Your task to perform on an android device: What's a good restaurant near me? Image 0: 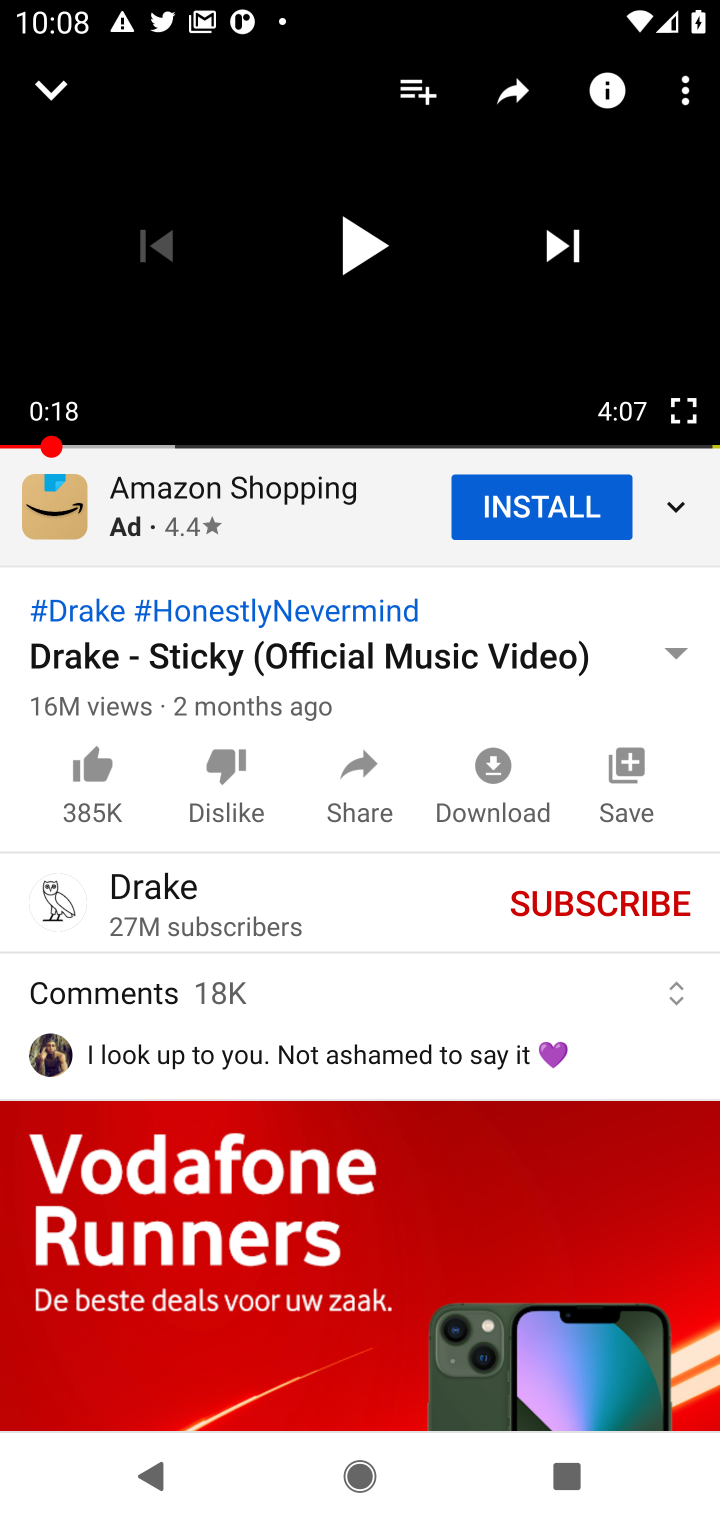
Step 0: press home button
Your task to perform on an android device: What's a good restaurant near me? Image 1: 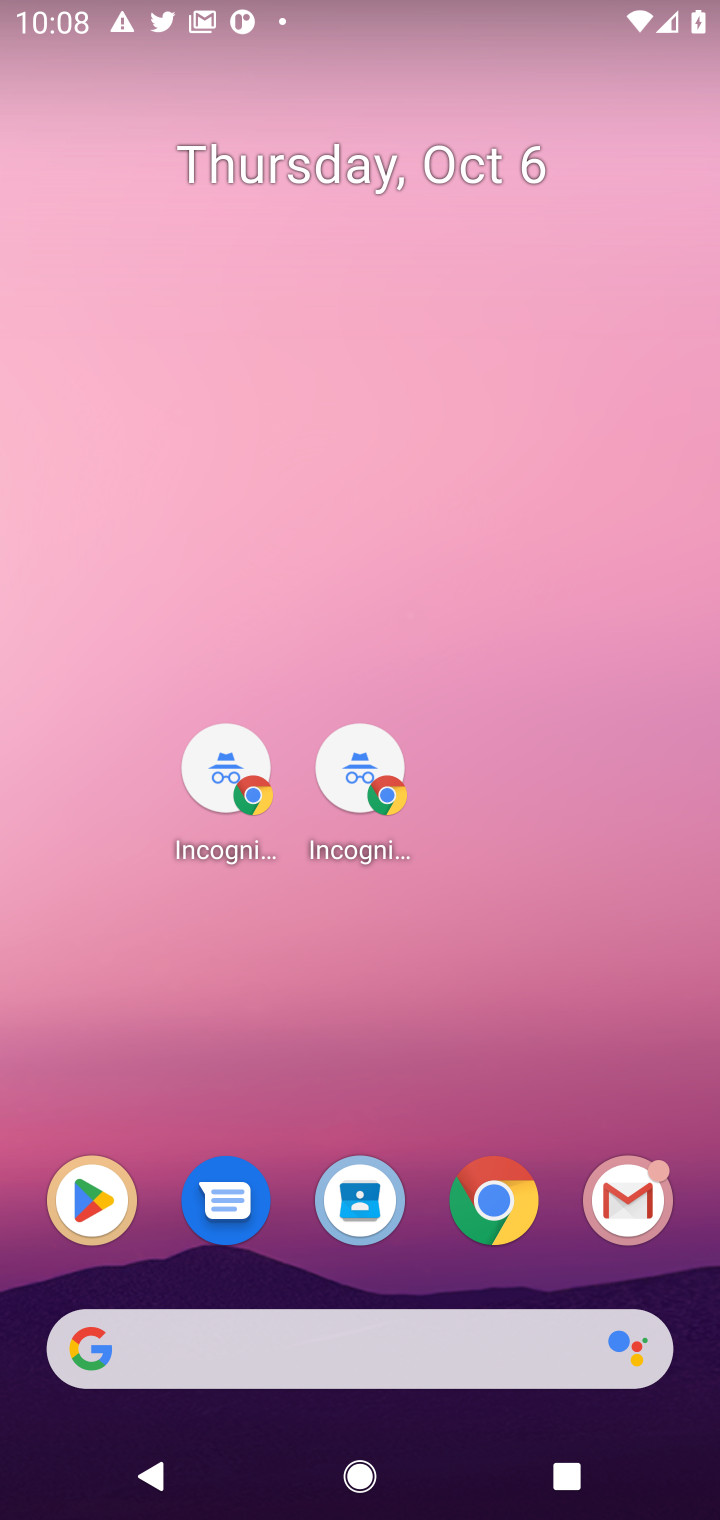
Step 1: press home button
Your task to perform on an android device: What's a good restaurant near me? Image 2: 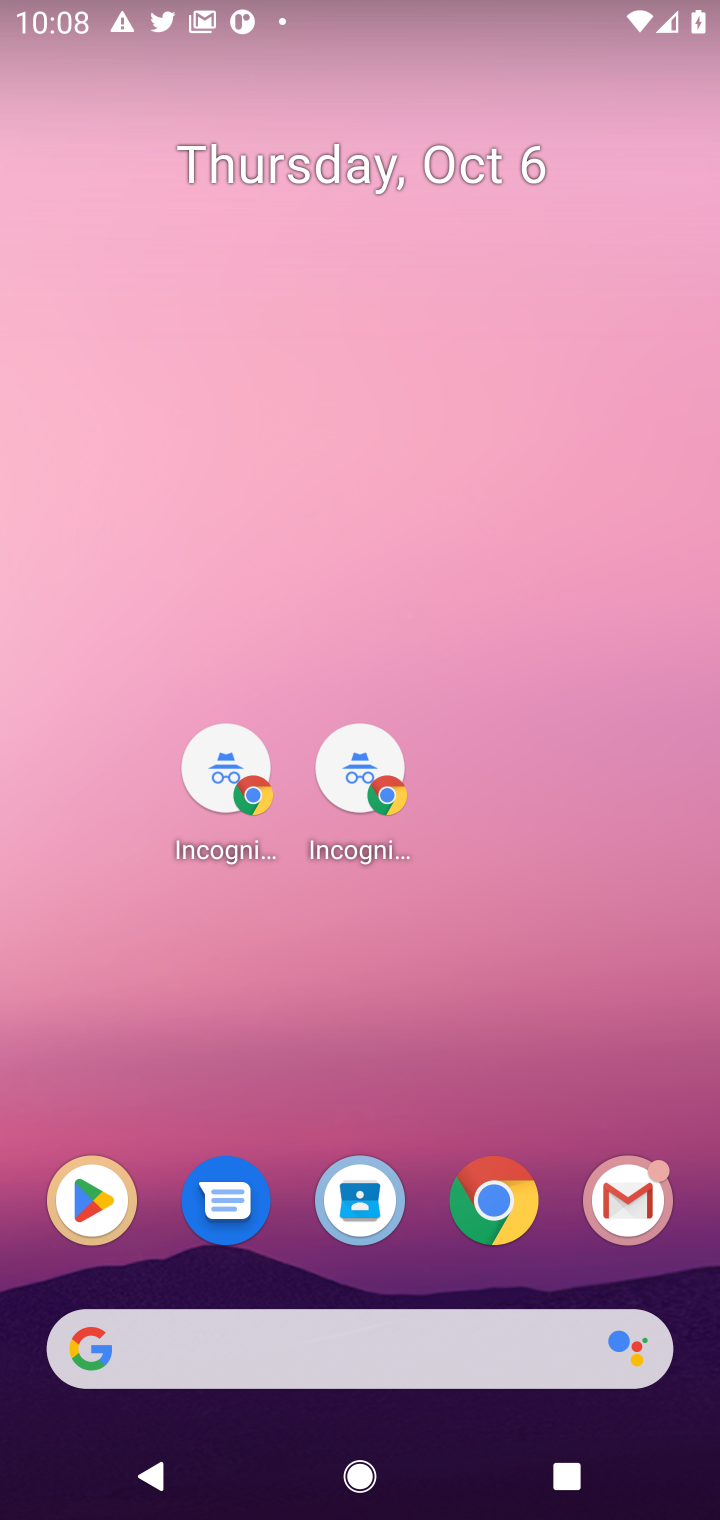
Step 2: press back button
Your task to perform on an android device: What's a good restaurant near me? Image 3: 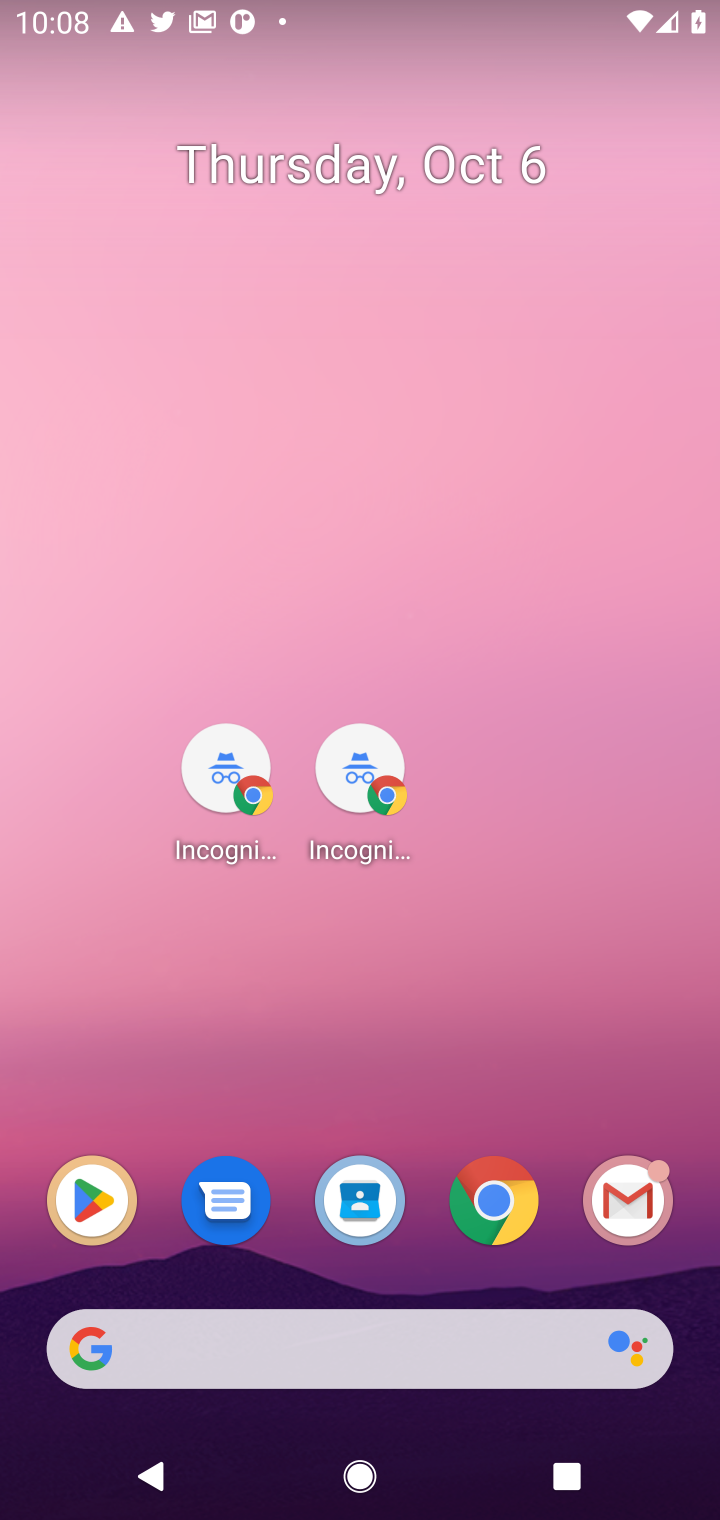
Step 3: press back button
Your task to perform on an android device: What's a good restaurant near me? Image 4: 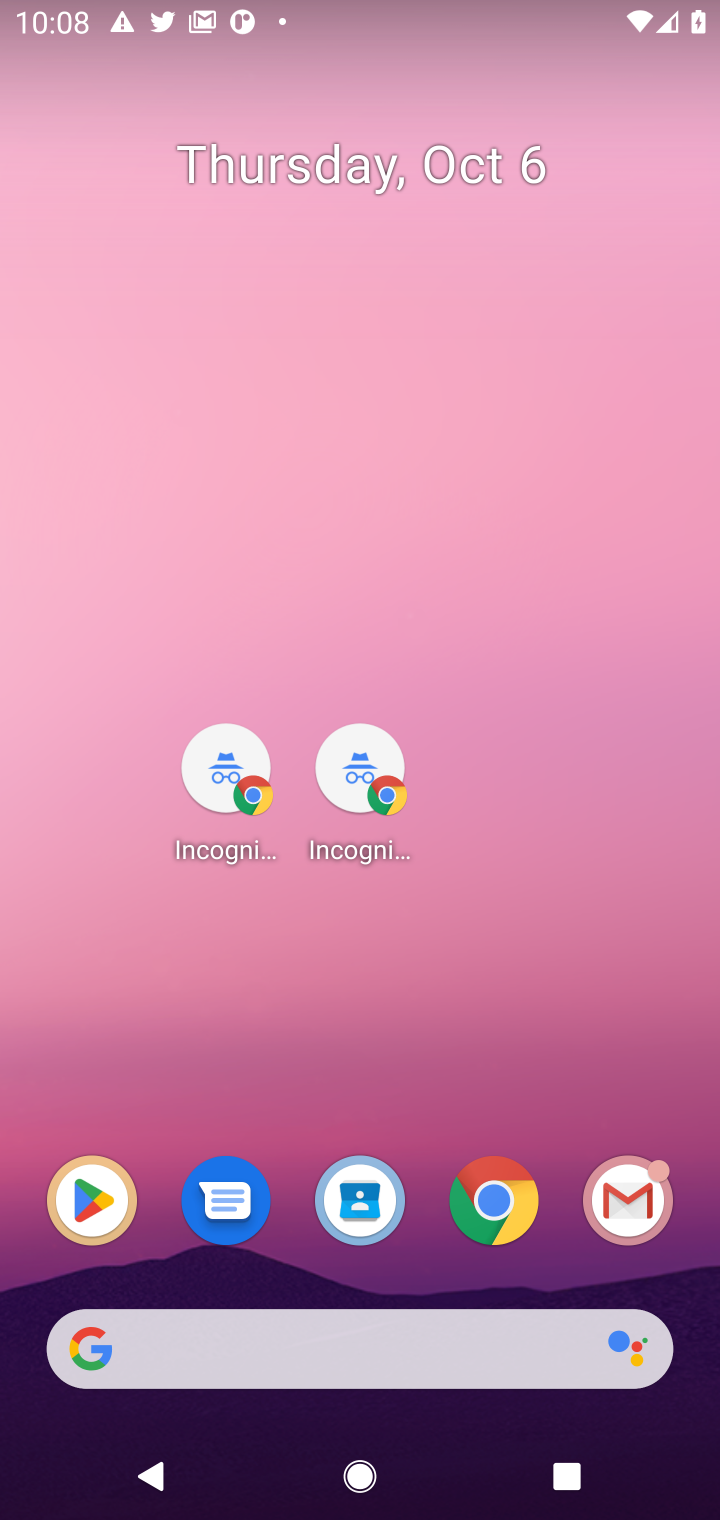
Step 4: press home button
Your task to perform on an android device: What's a good restaurant near me? Image 5: 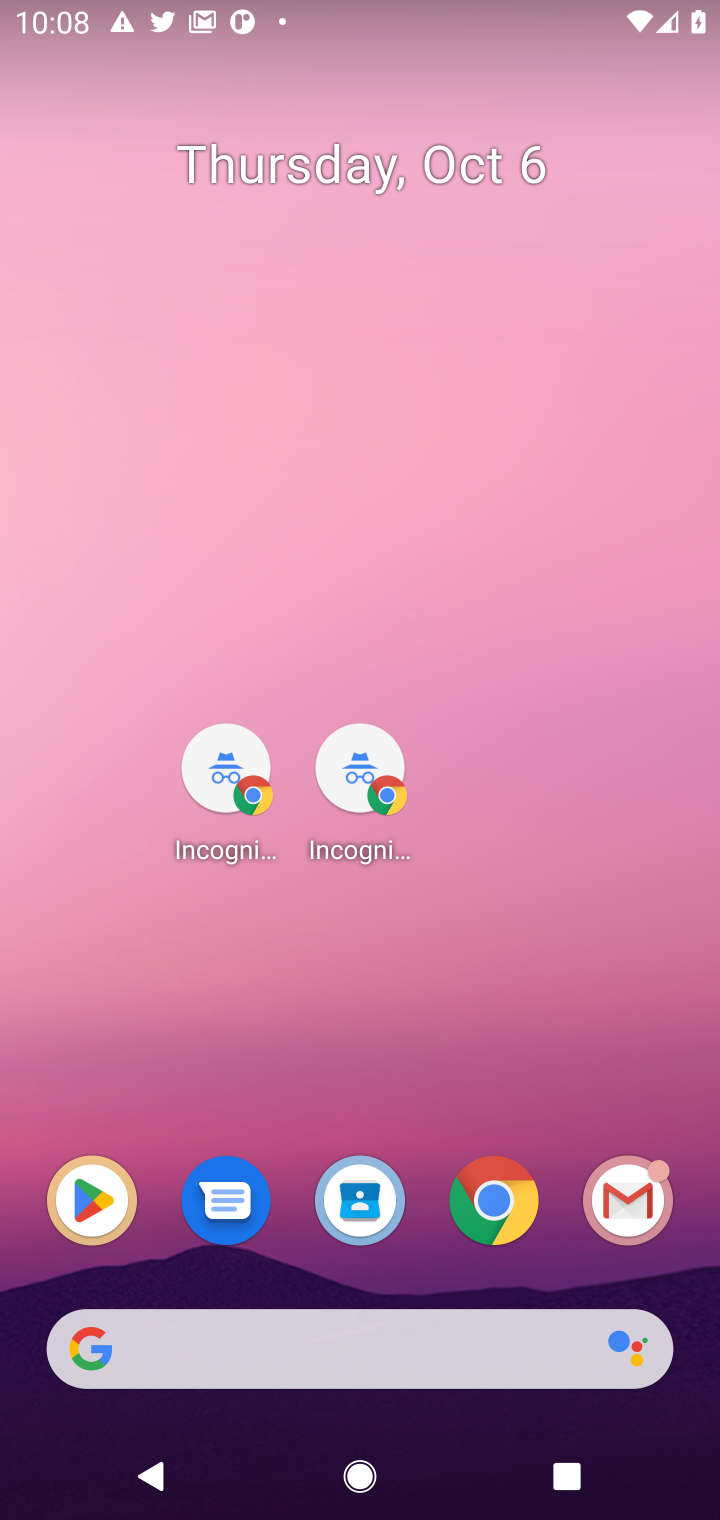
Step 5: click (474, 1198)
Your task to perform on an android device: What's a good restaurant near me? Image 6: 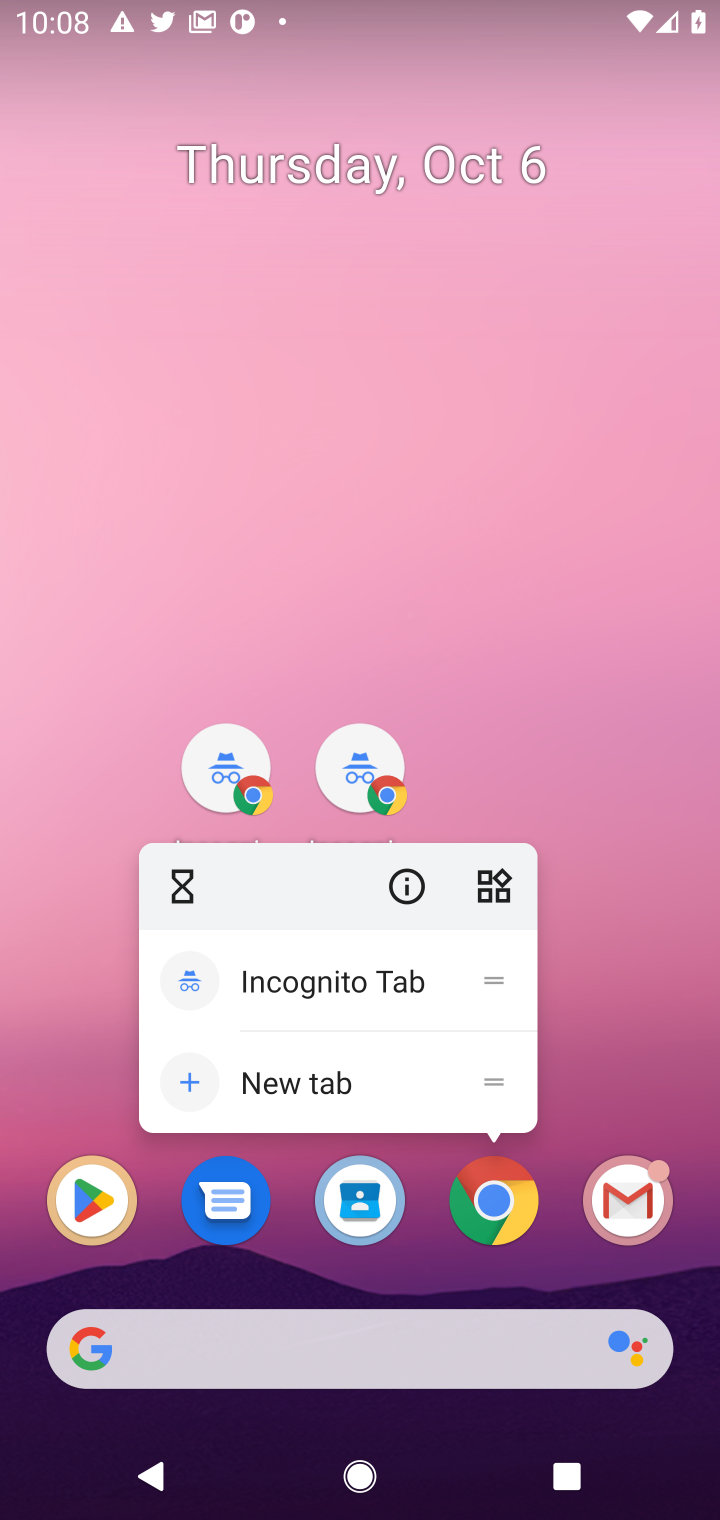
Step 6: press home button
Your task to perform on an android device: What's a good restaurant near me? Image 7: 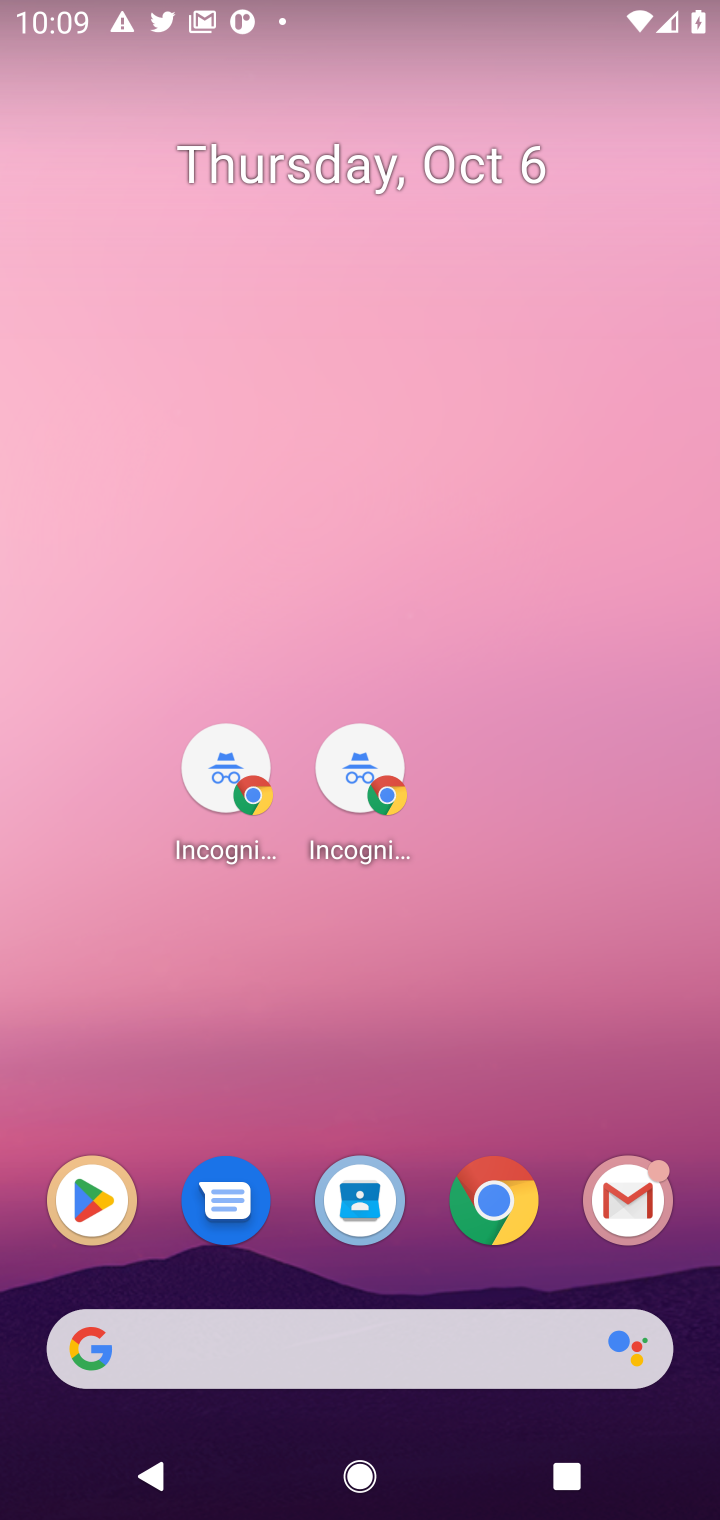
Step 7: click (490, 1226)
Your task to perform on an android device: What's a good restaurant near me? Image 8: 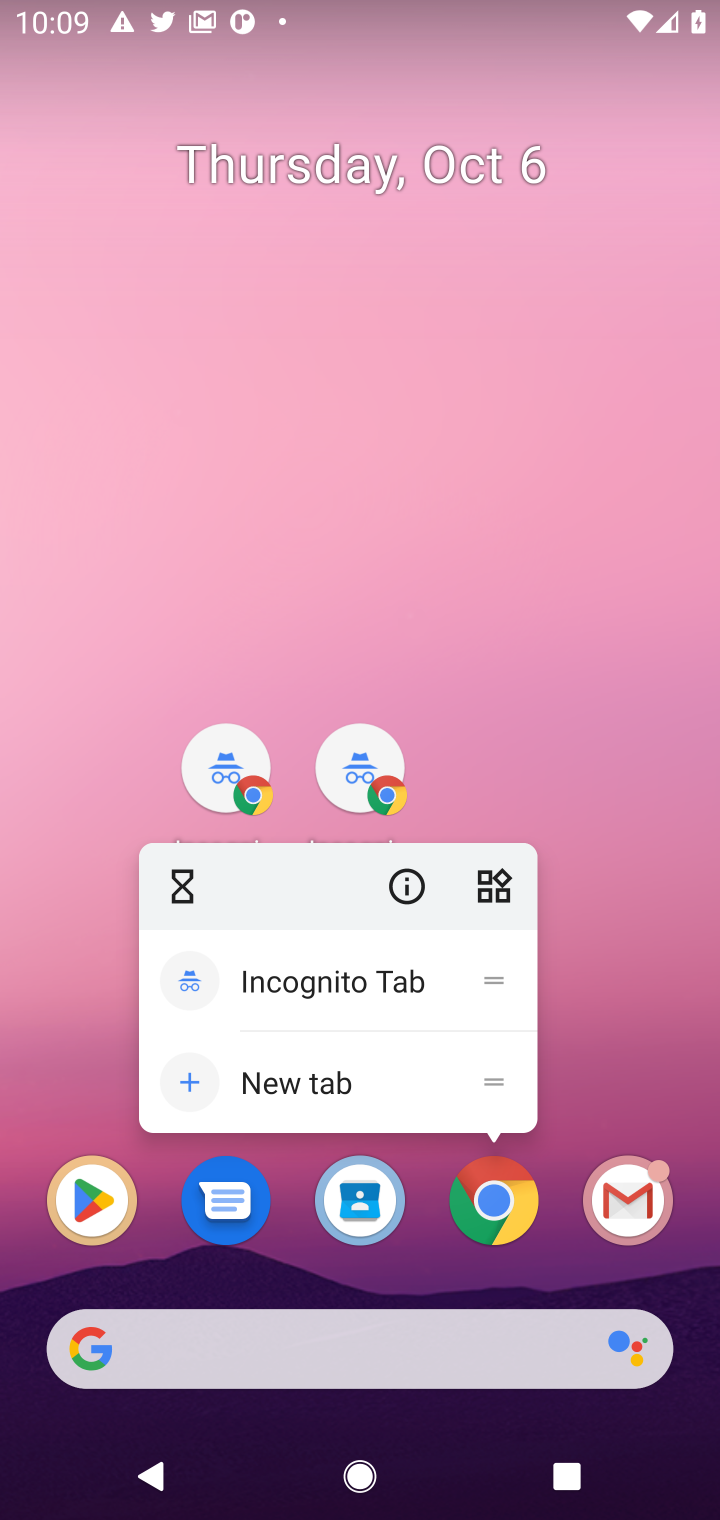
Step 8: press home button
Your task to perform on an android device: What's a good restaurant near me? Image 9: 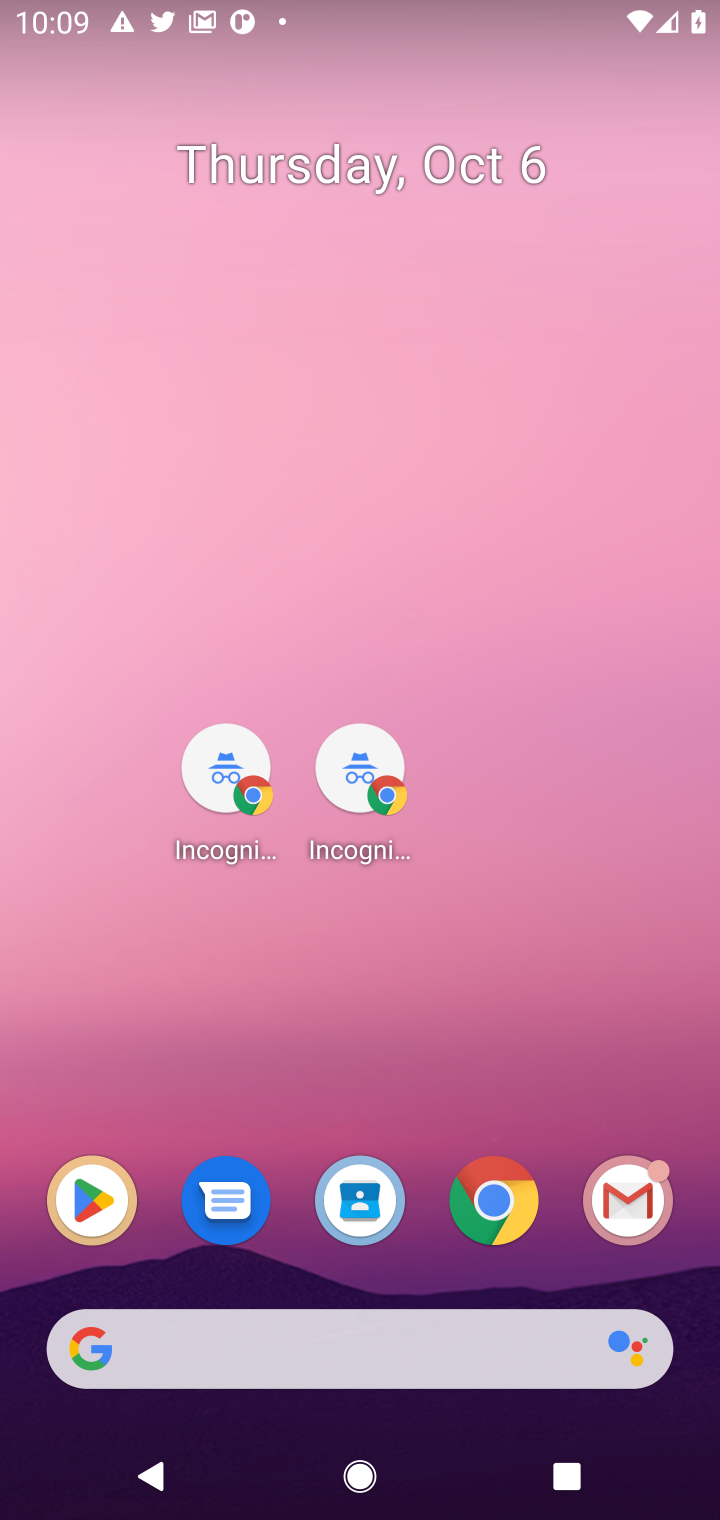
Step 9: press home button
Your task to perform on an android device: What's a good restaurant near me? Image 10: 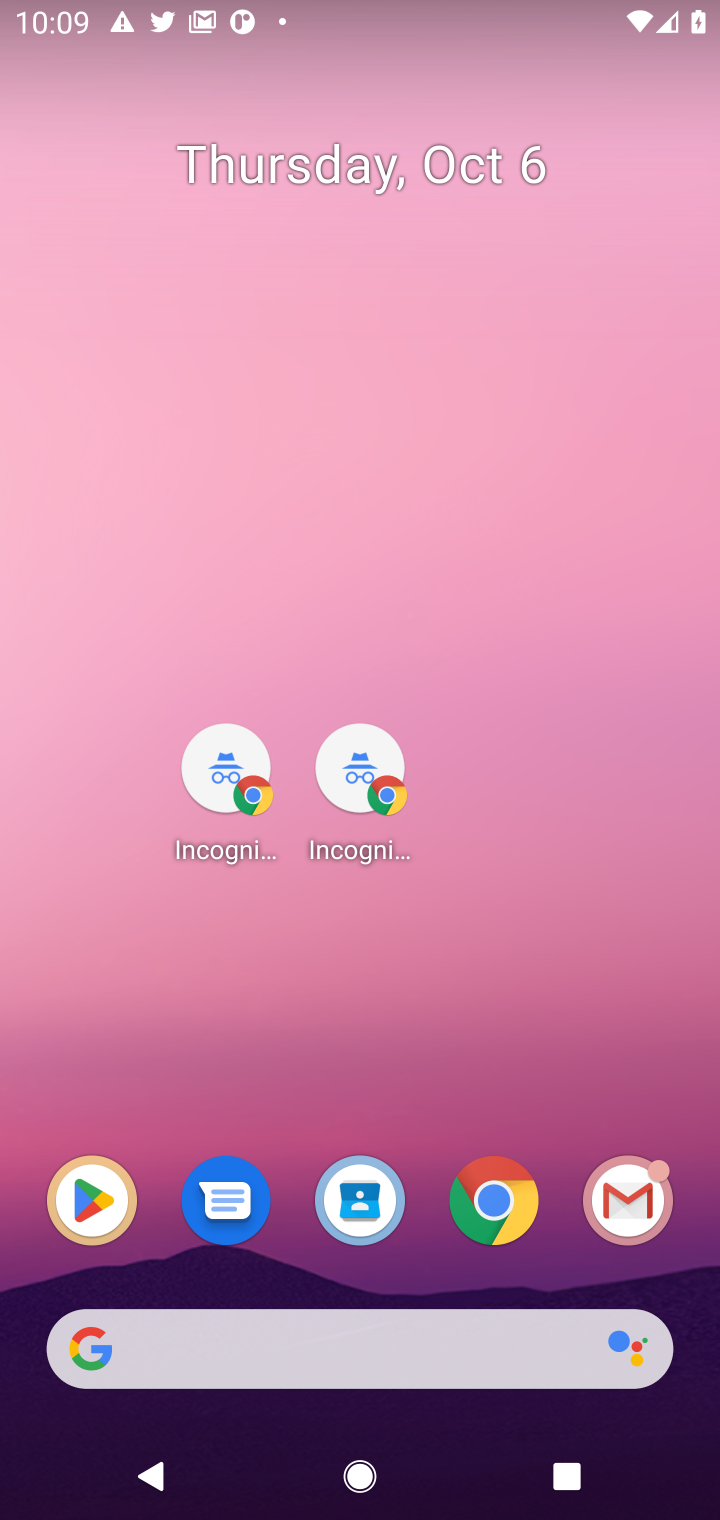
Step 10: press home button
Your task to perform on an android device: What's a good restaurant near me? Image 11: 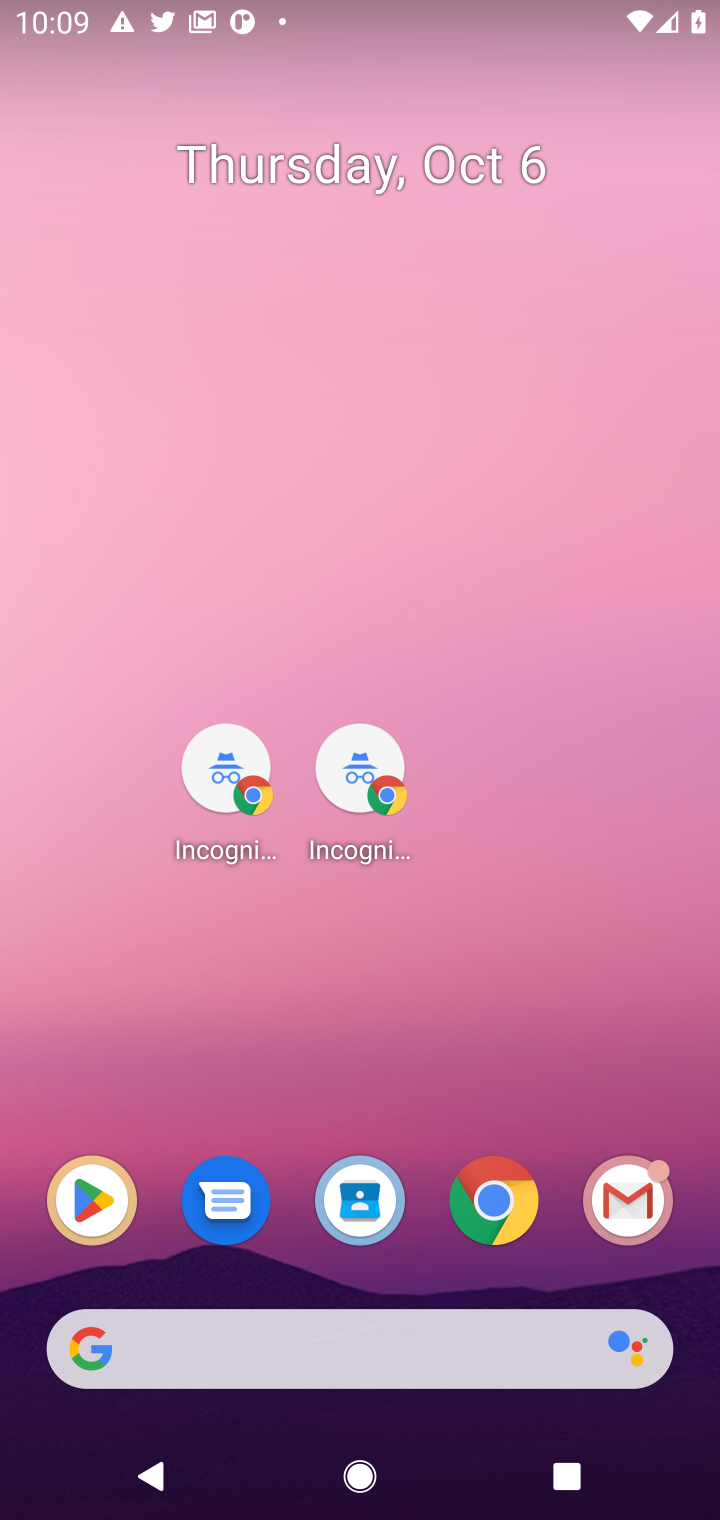
Step 11: click (488, 1195)
Your task to perform on an android device: What's a good restaurant near me? Image 12: 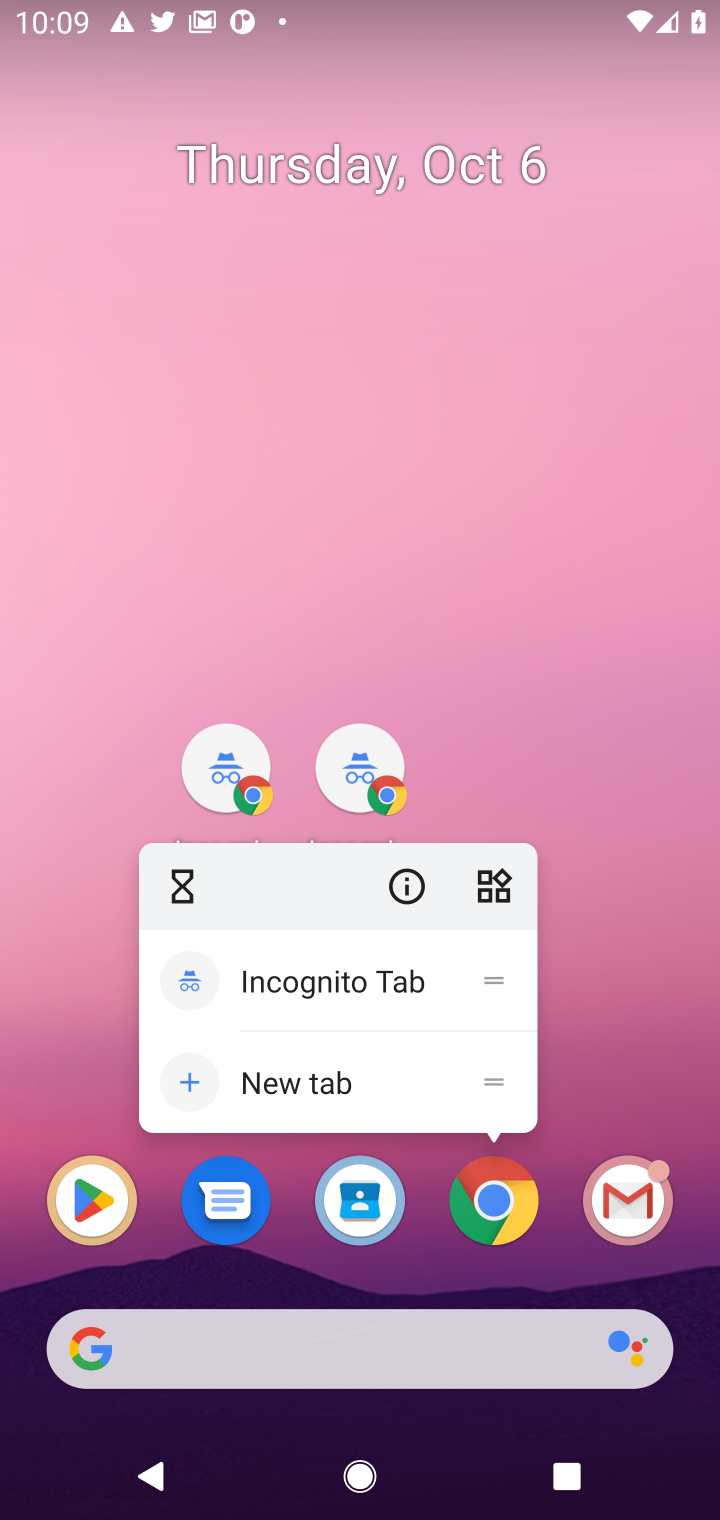
Step 12: click (507, 1188)
Your task to perform on an android device: What's a good restaurant near me? Image 13: 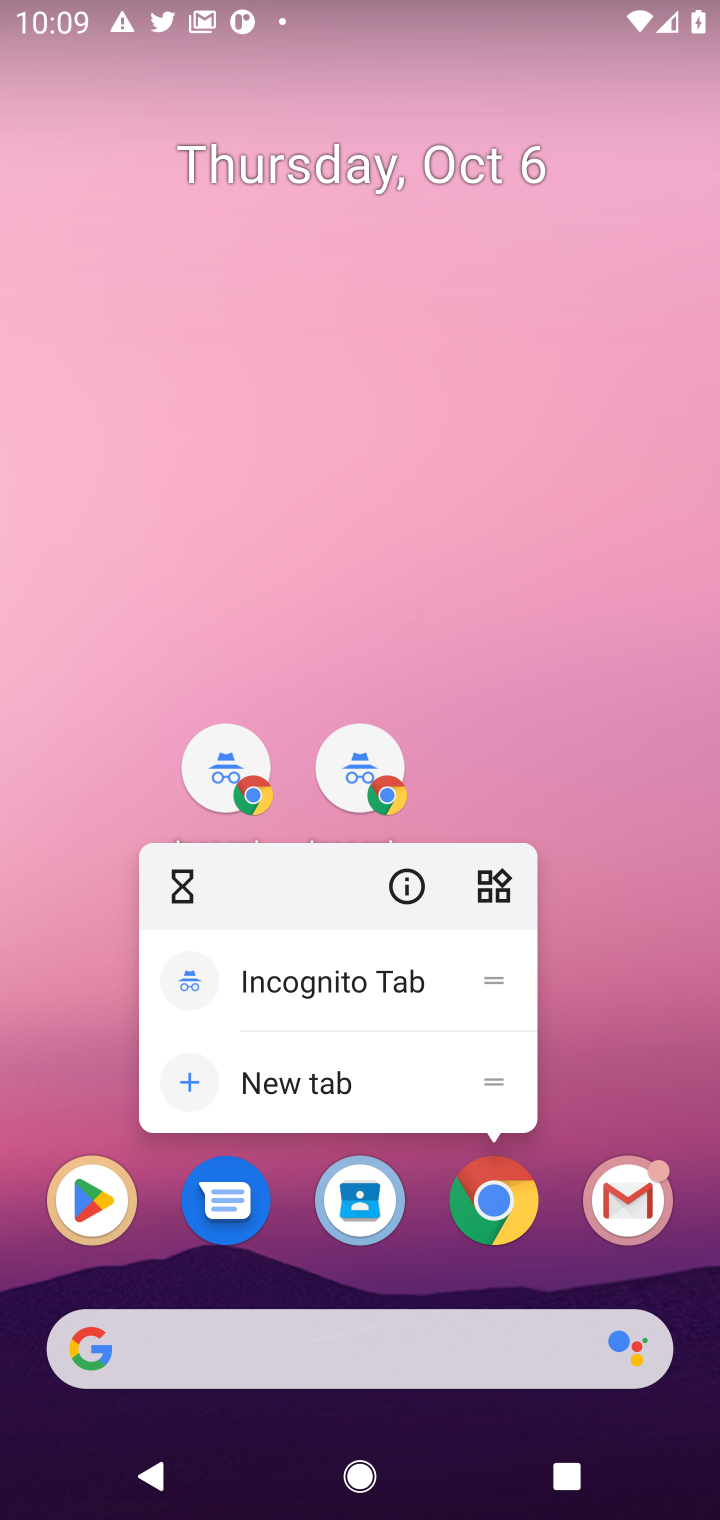
Step 13: press home button
Your task to perform on an android device: What's a good restaurant near me? Image 14: 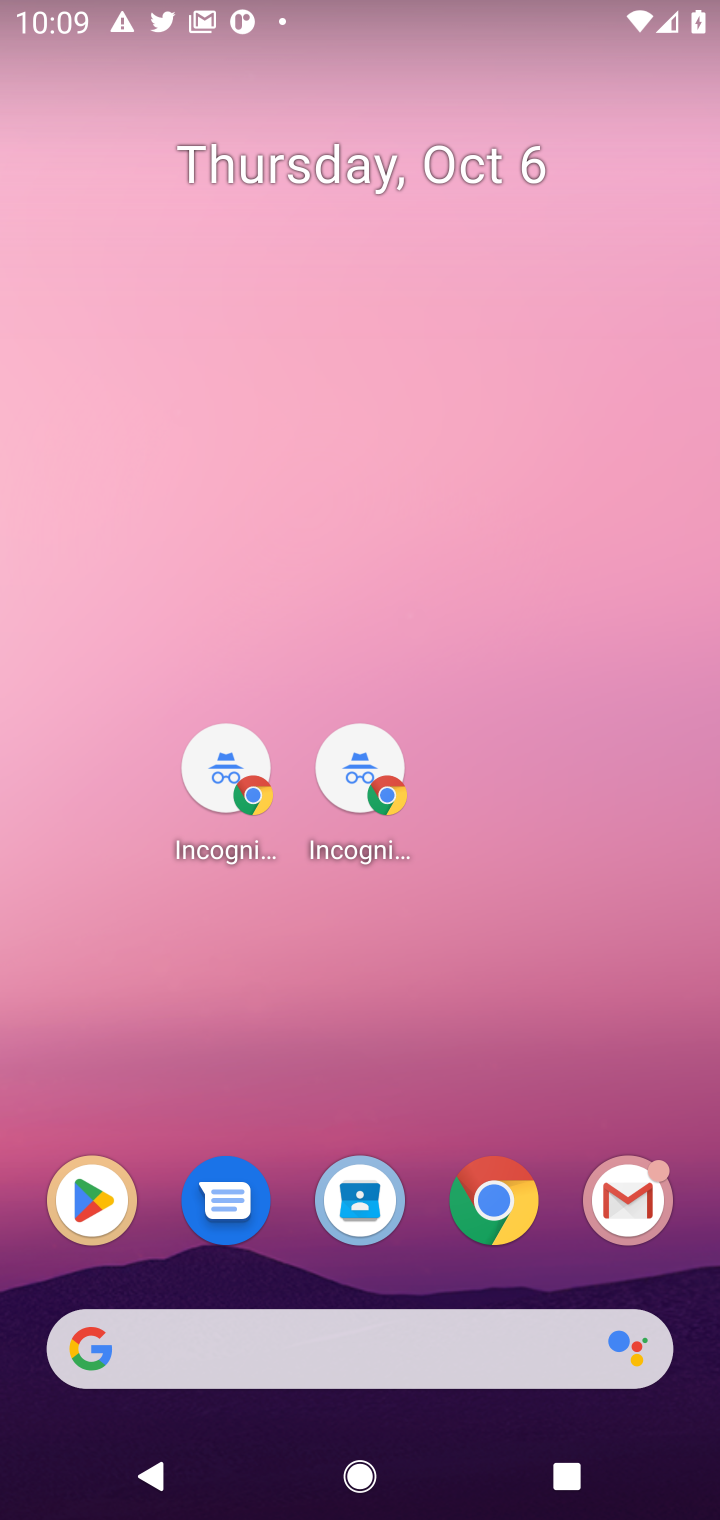
Step 14: press back button
Your task to perform on an android device: What's a good restaurant near me? Image 15: 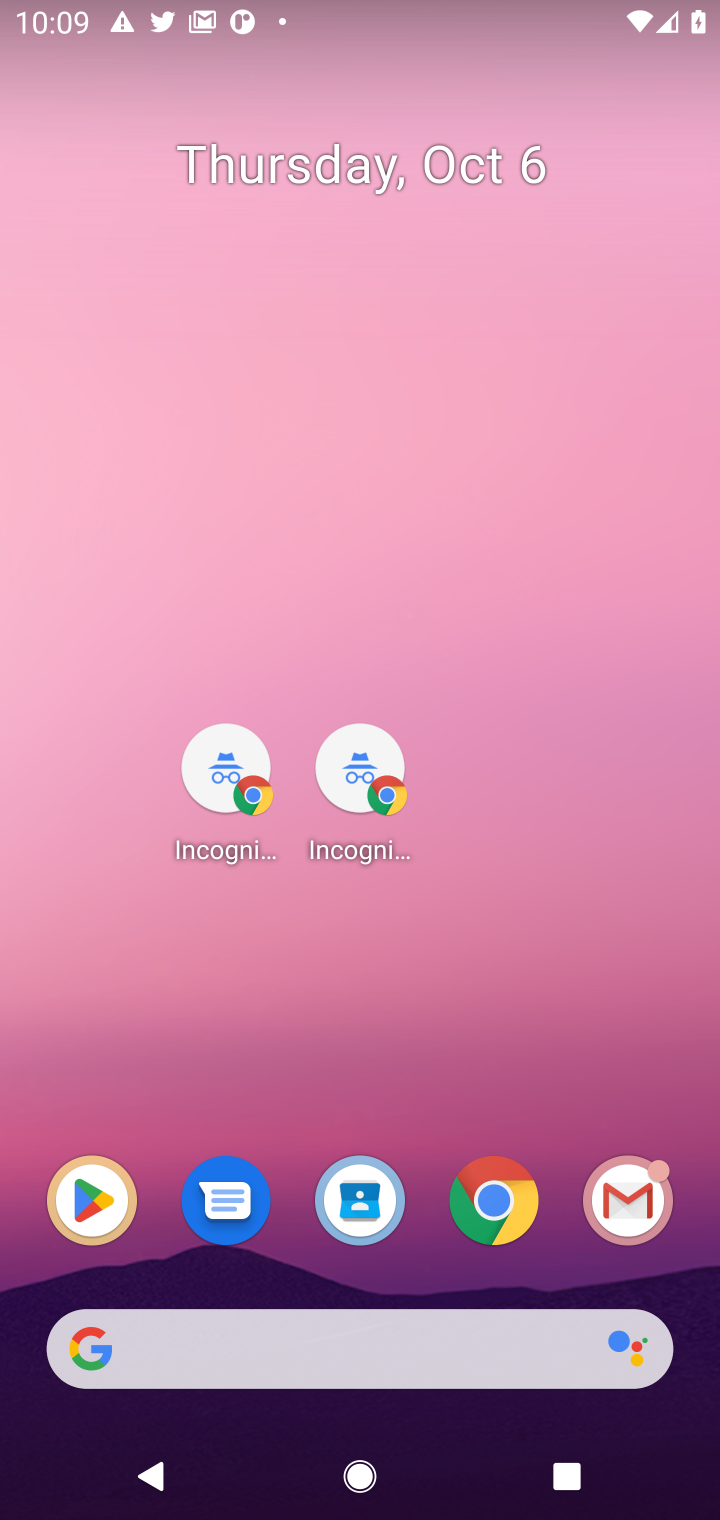
Step 15: press back button
Your task to perform on an android device: What's a good restaurant near me? Image 16: 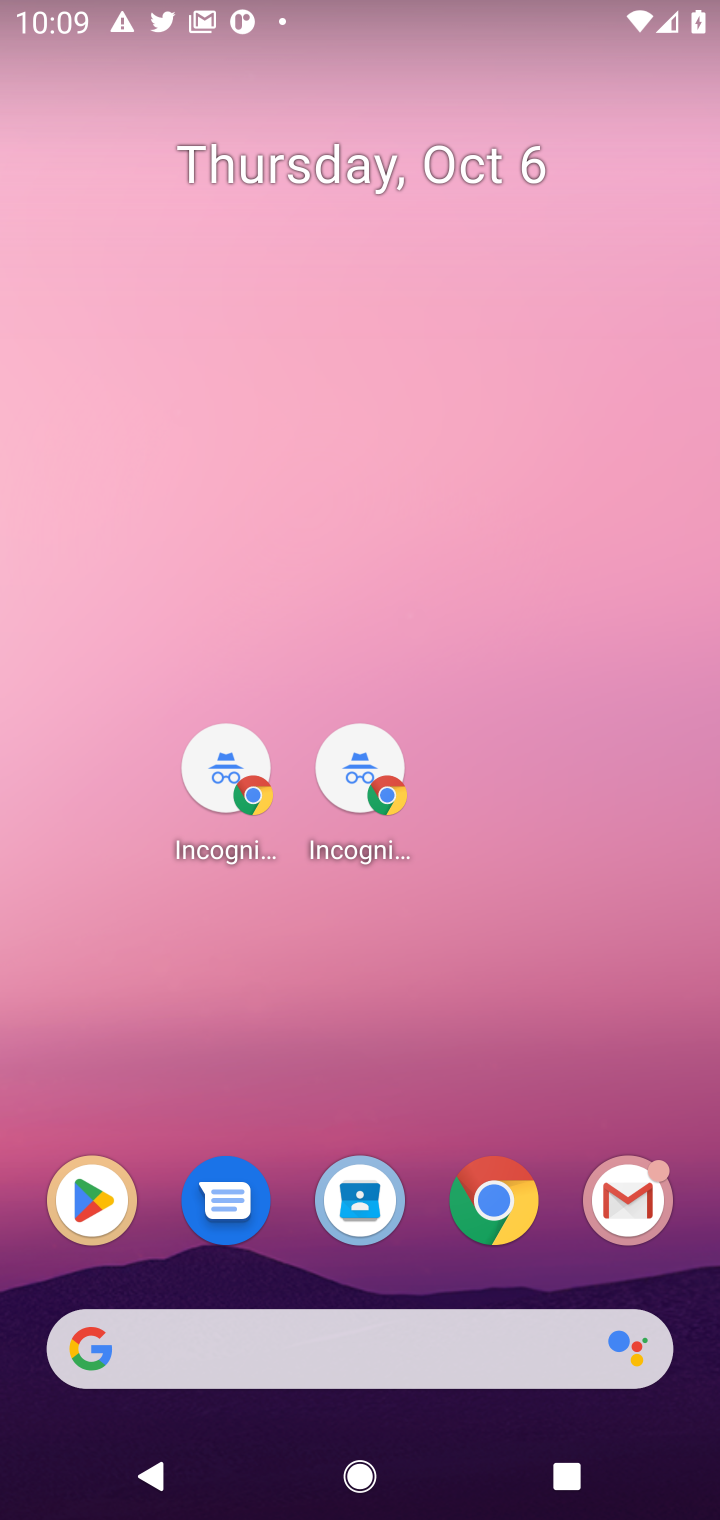
Step 16: press back button
Your task to perform on an android device: What's a good restaurant near me? Image 17: 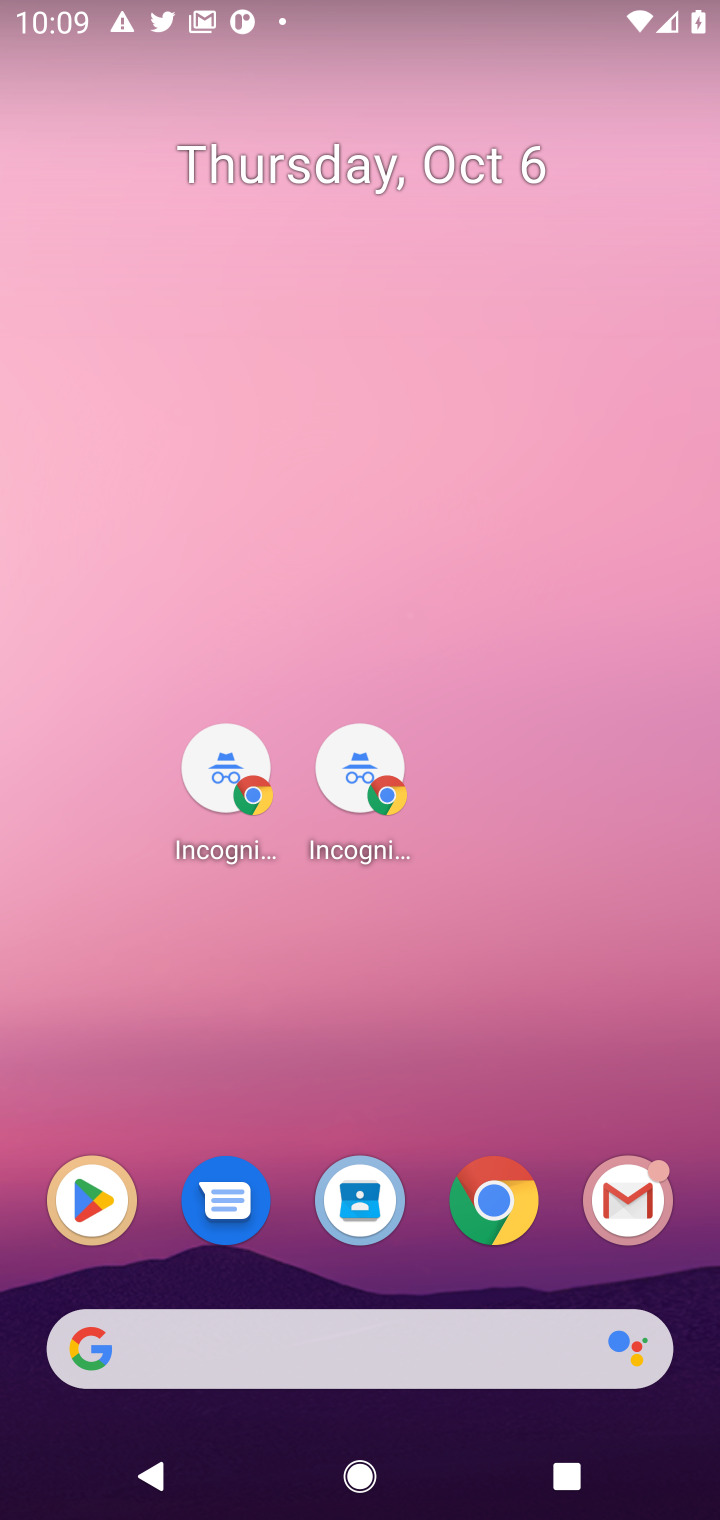
Step 17: press back button
Your task to perform on an android device: What's a good restaurant near me? Image 18: 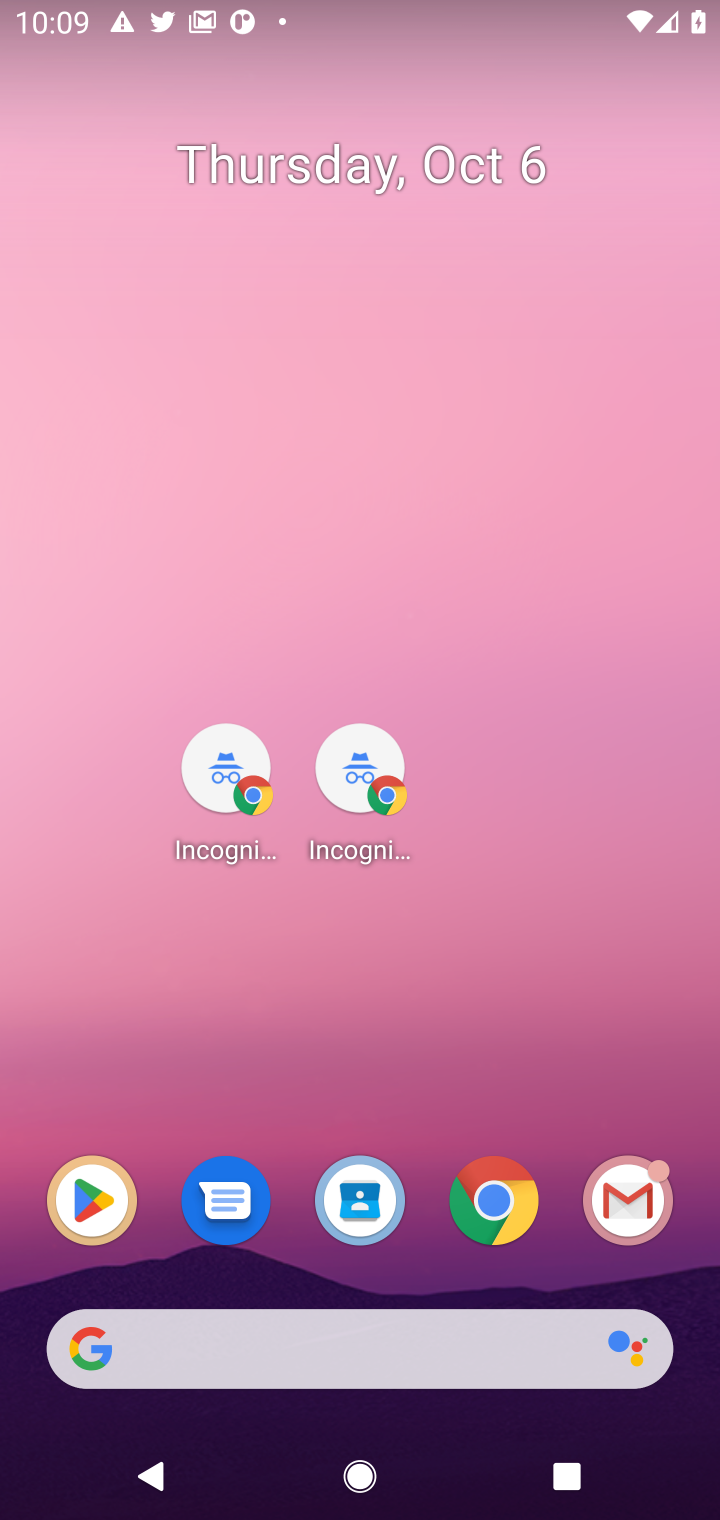
Step 18: press home button
Your task to perform on an android device: What's a good restaurant near me? Image 19: 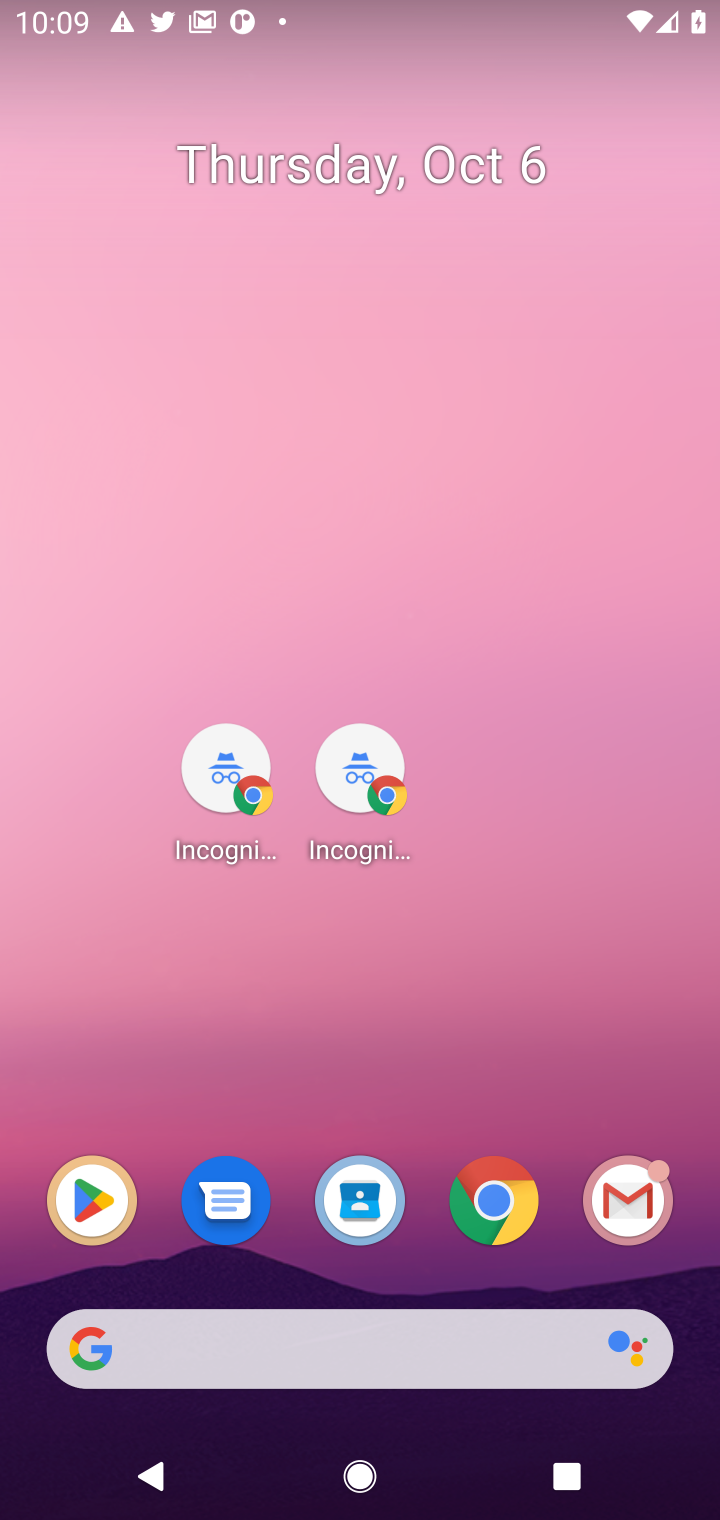
Step 19: click (475, 1221)
Your task to perform on an android device: What's a good restaurant near me? Image 20: 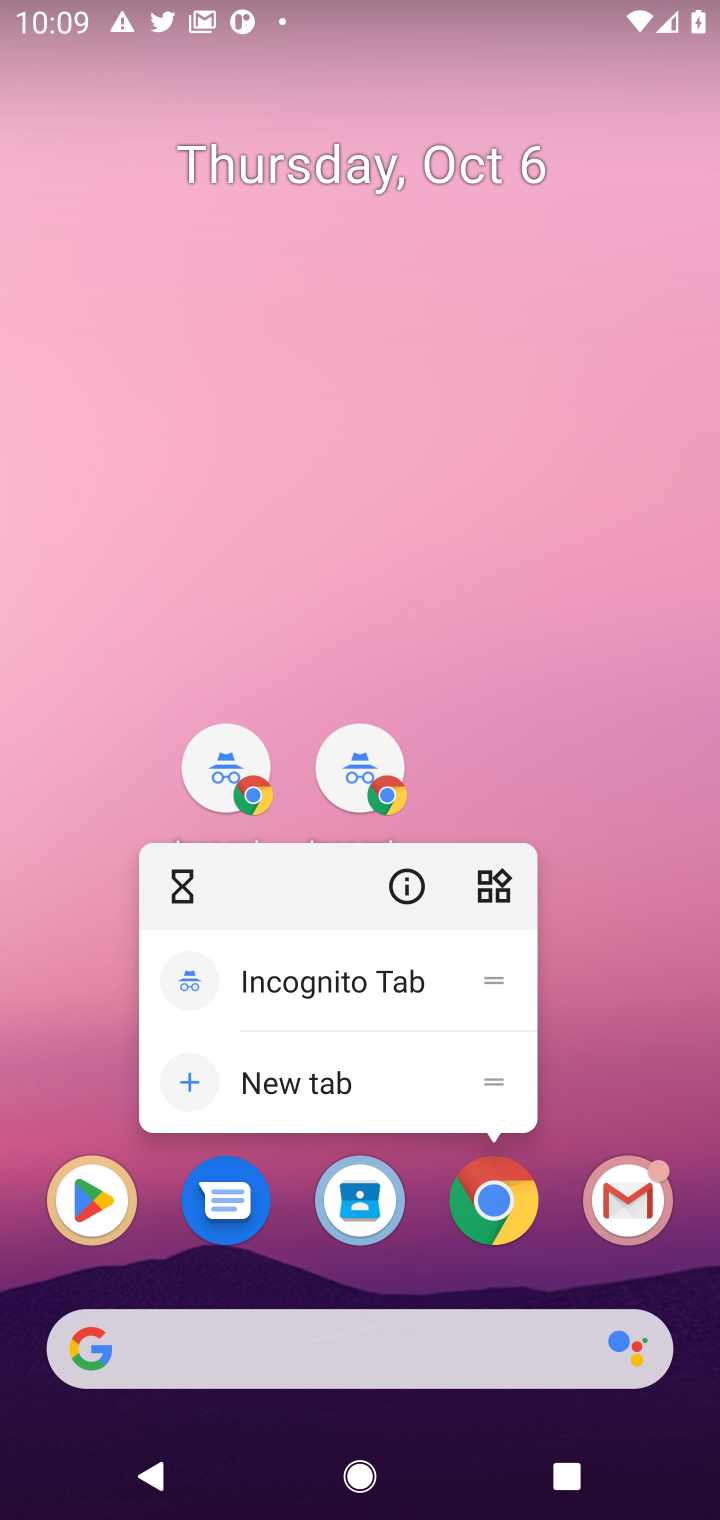
Step 20: click (475, 1219)
Your task to perform on an android device: What's a good restaurant near me? Image 21: 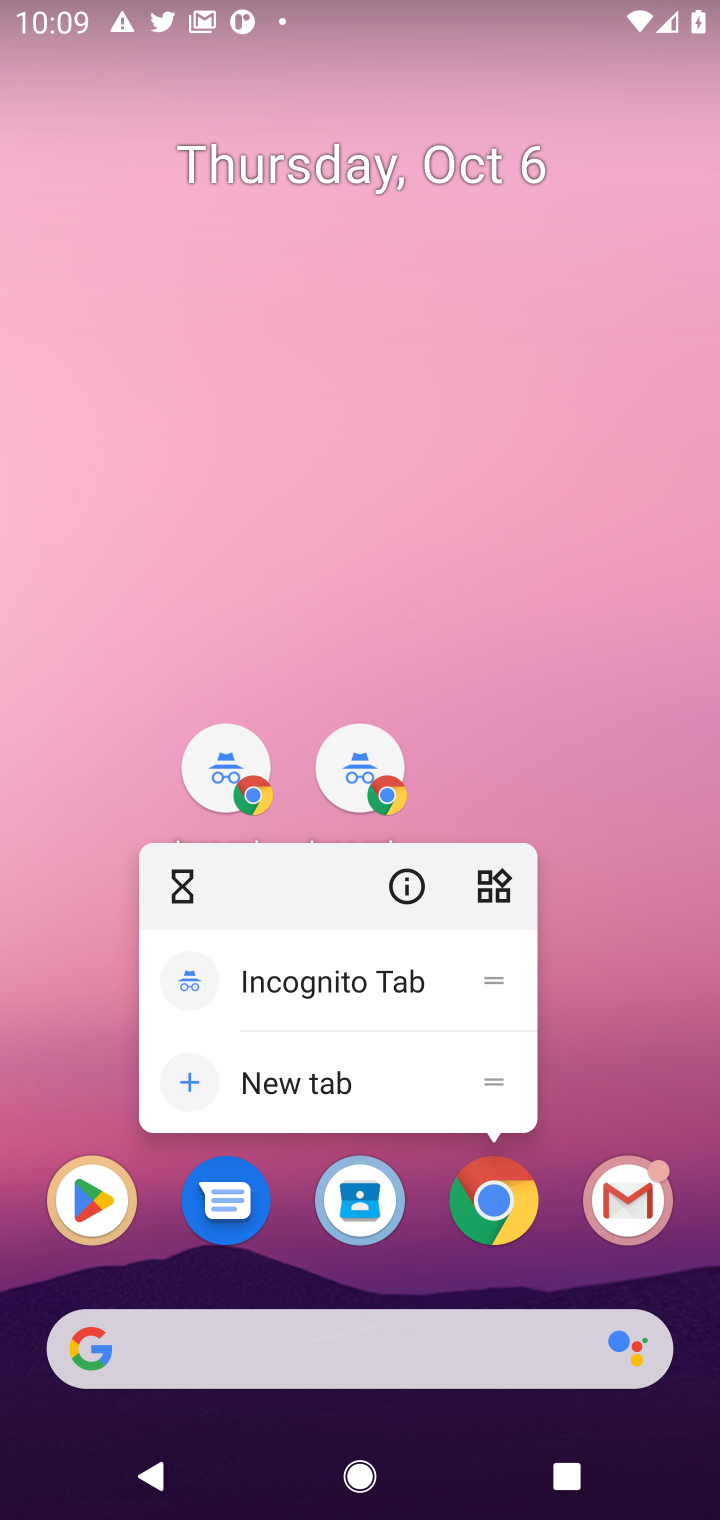
Step 21: click (477, 1215)
Your task to perform on an android device: What's a good restaurant near me? Image 22: 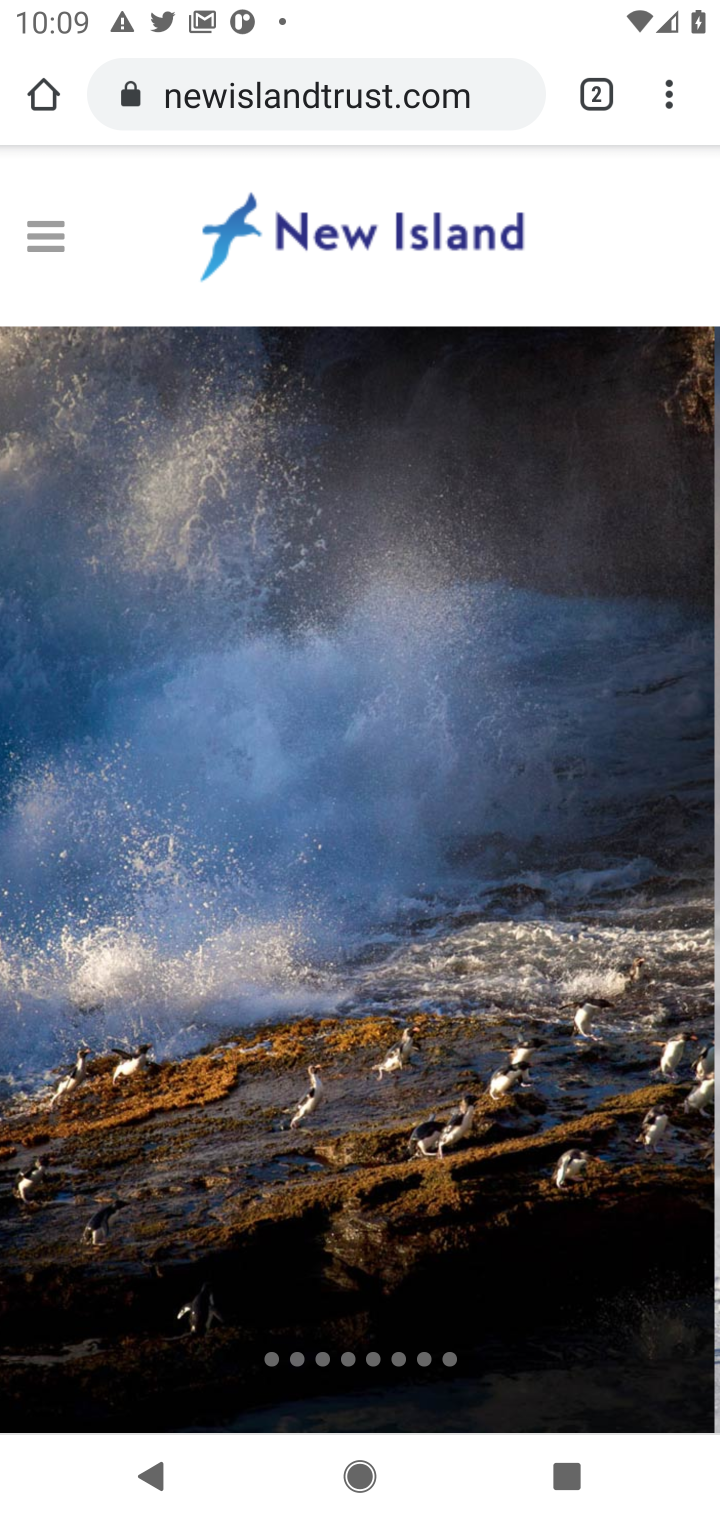
Step 22: click (295, 87)
Your task to perform on an android device: What's a good restaurant near me? Image 23: 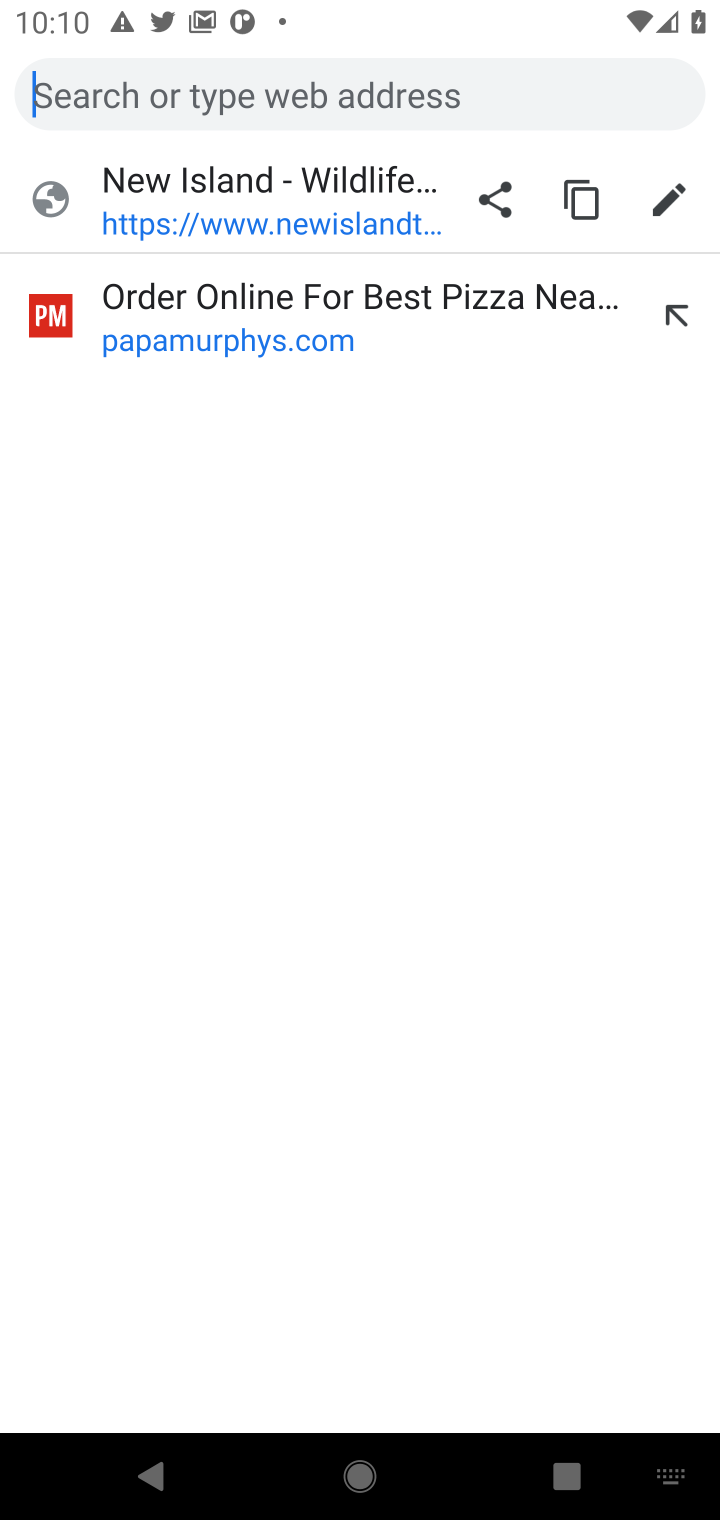
Step 23: type "good resturant near me"
Your task to perform on an android device: What's a good restaurant near me? Image 24: 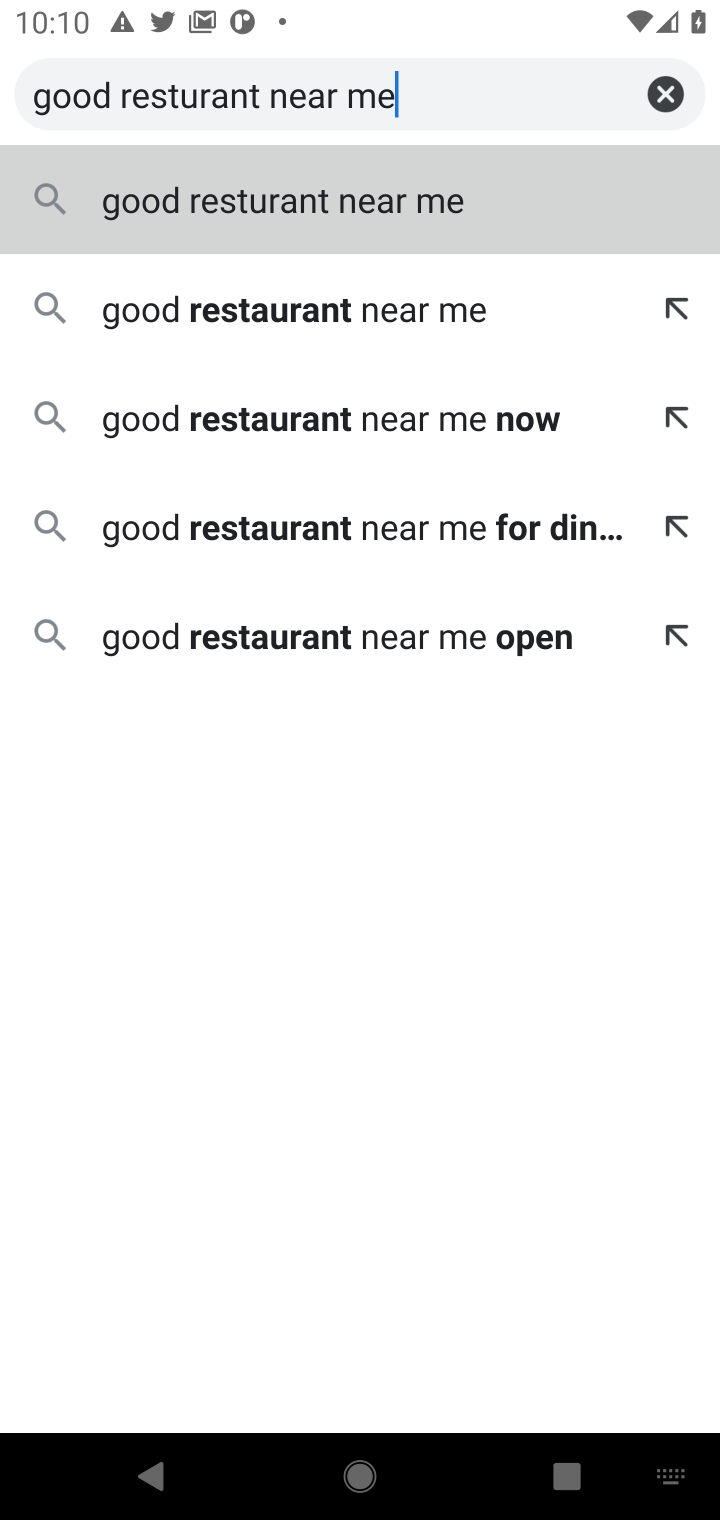
Step 24: click (278, 312)
Your task to perform on an android device: What's a good restaurant near me? Image 25: 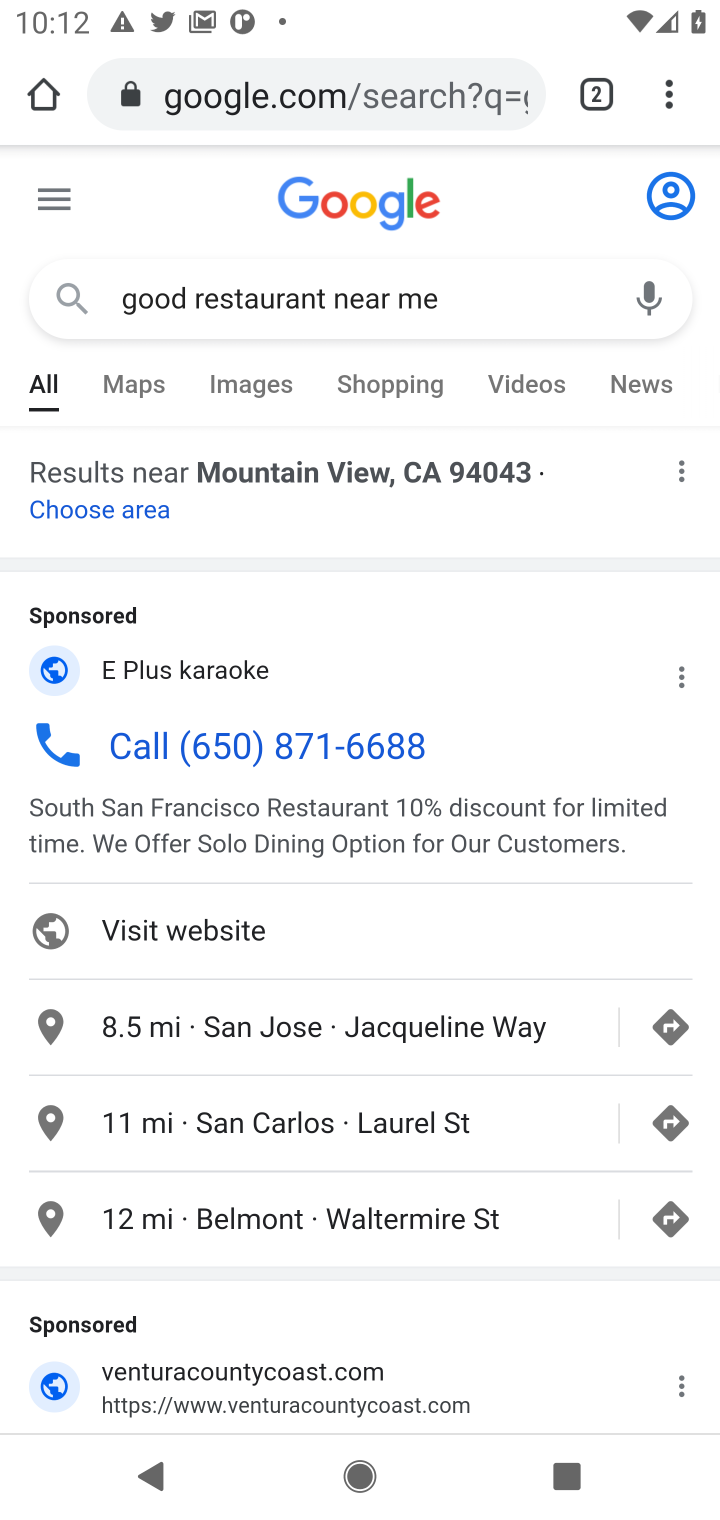
Step 25: drag from (316, 989) to (379, 475)
Your task to perform on an android device: What's a good restaurant near me? Image 26: 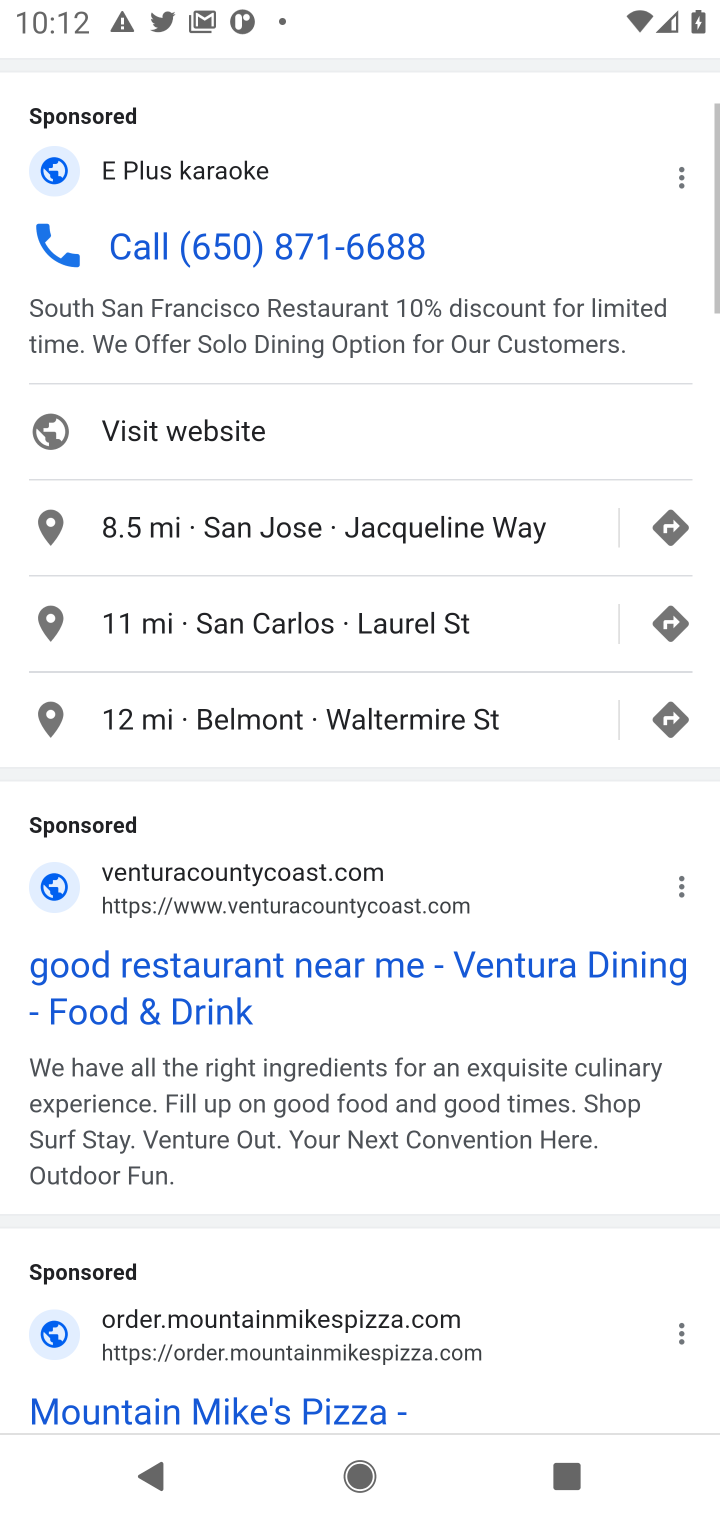
Step 26: drag from (353, 1158) to (452, 462)
Your task to perform on an android device: What's a good restaurant near me? Image 27: 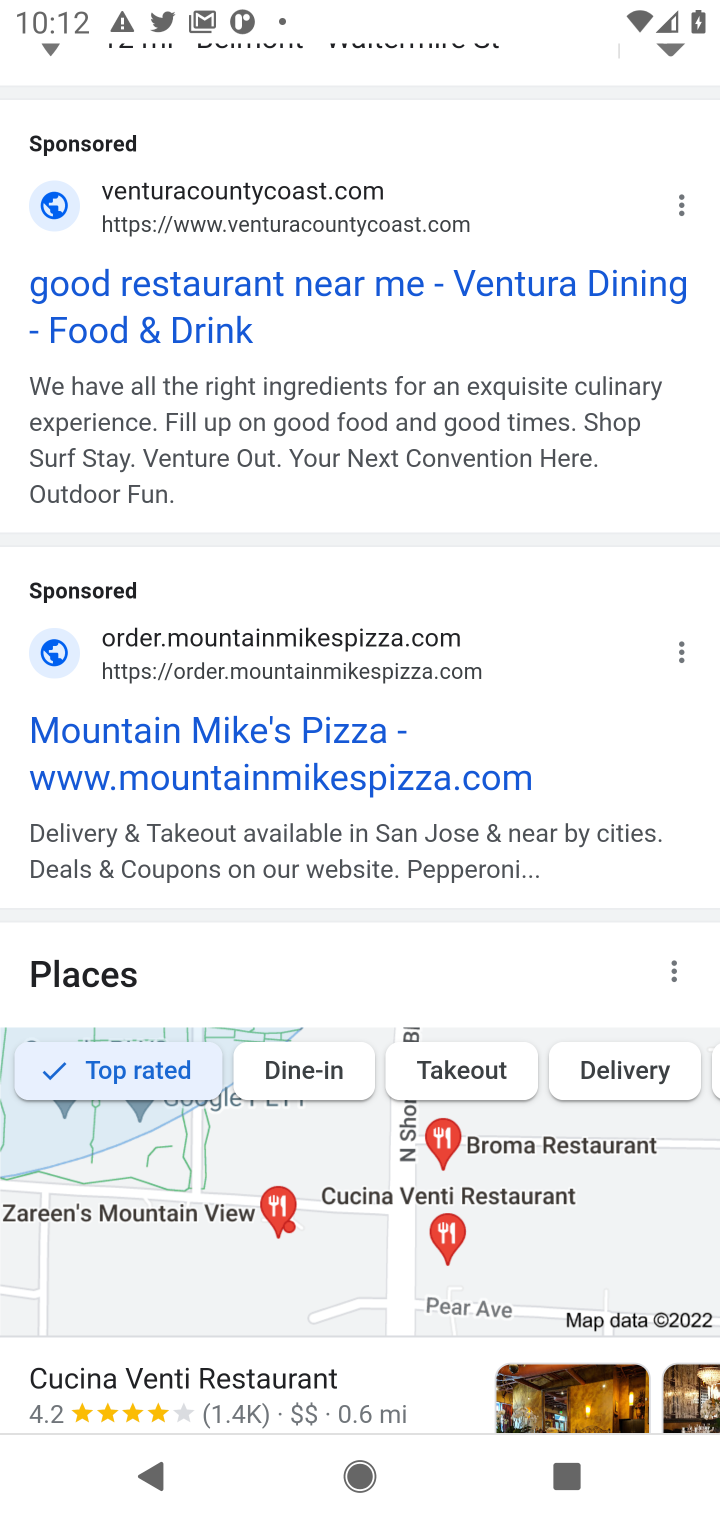
Step 27: drag from (339, 918) to (428, 339)
Your task to perform on an android device: What's a good restaurant near me? Image 28: 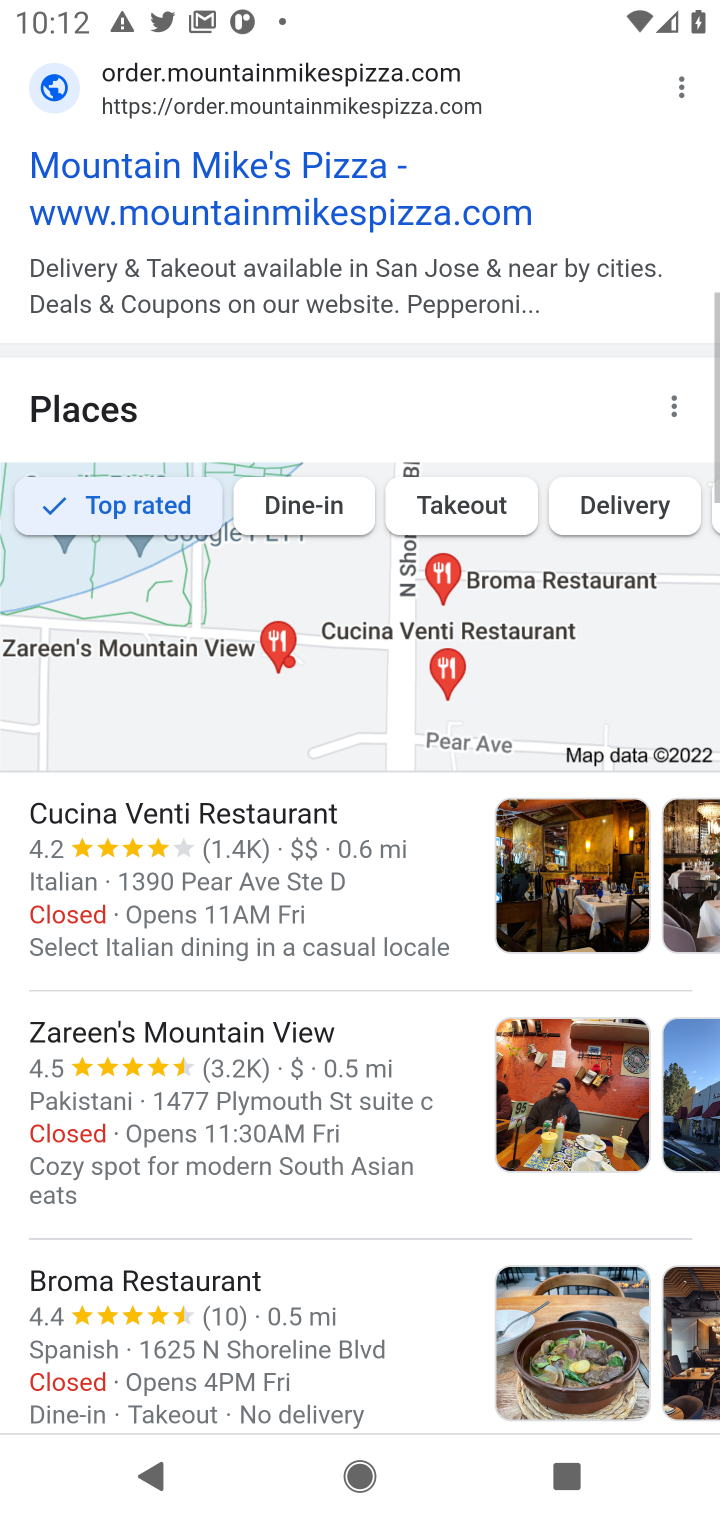
Step 28: drag from (324, 1322) to (383, 667)
Your task to perform on an android device: What's a good restaurant near me? Image 29: 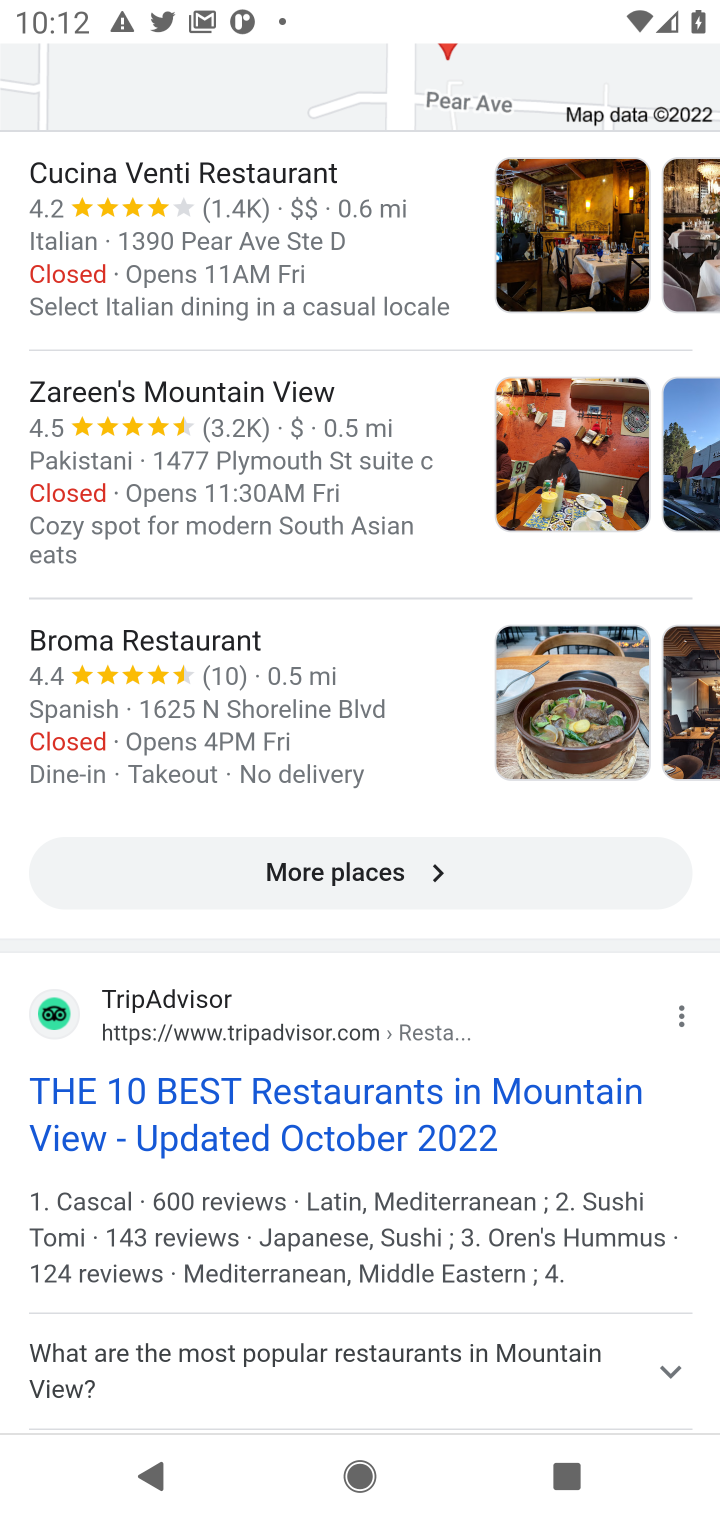
Step 29: drag from (294, 1226) to (333, 584)
Your task to perform on an android device: What's a good restaurant near me? Image 30: 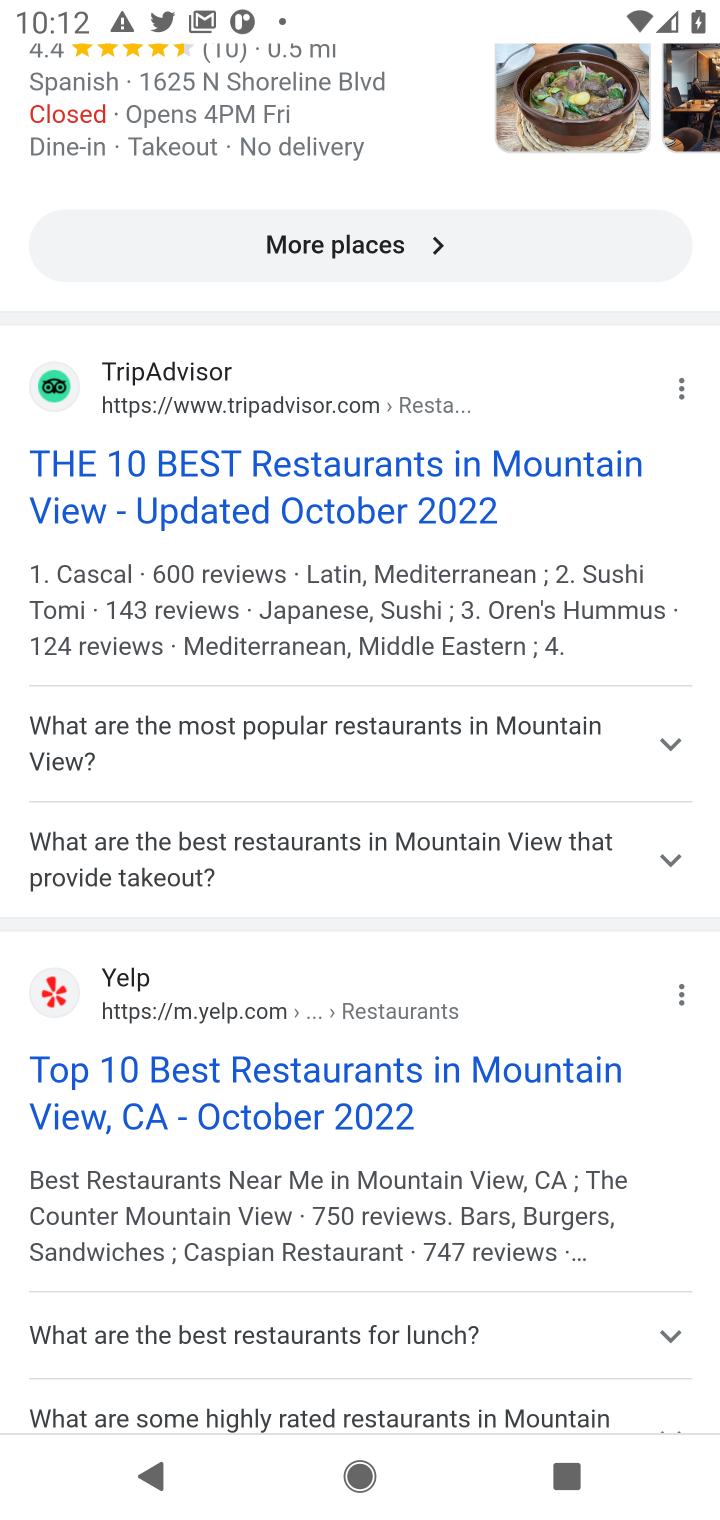
Step 30: click (294, 1070)
Your task to perform on an android device: What's a good restaurant near me? Image 31: 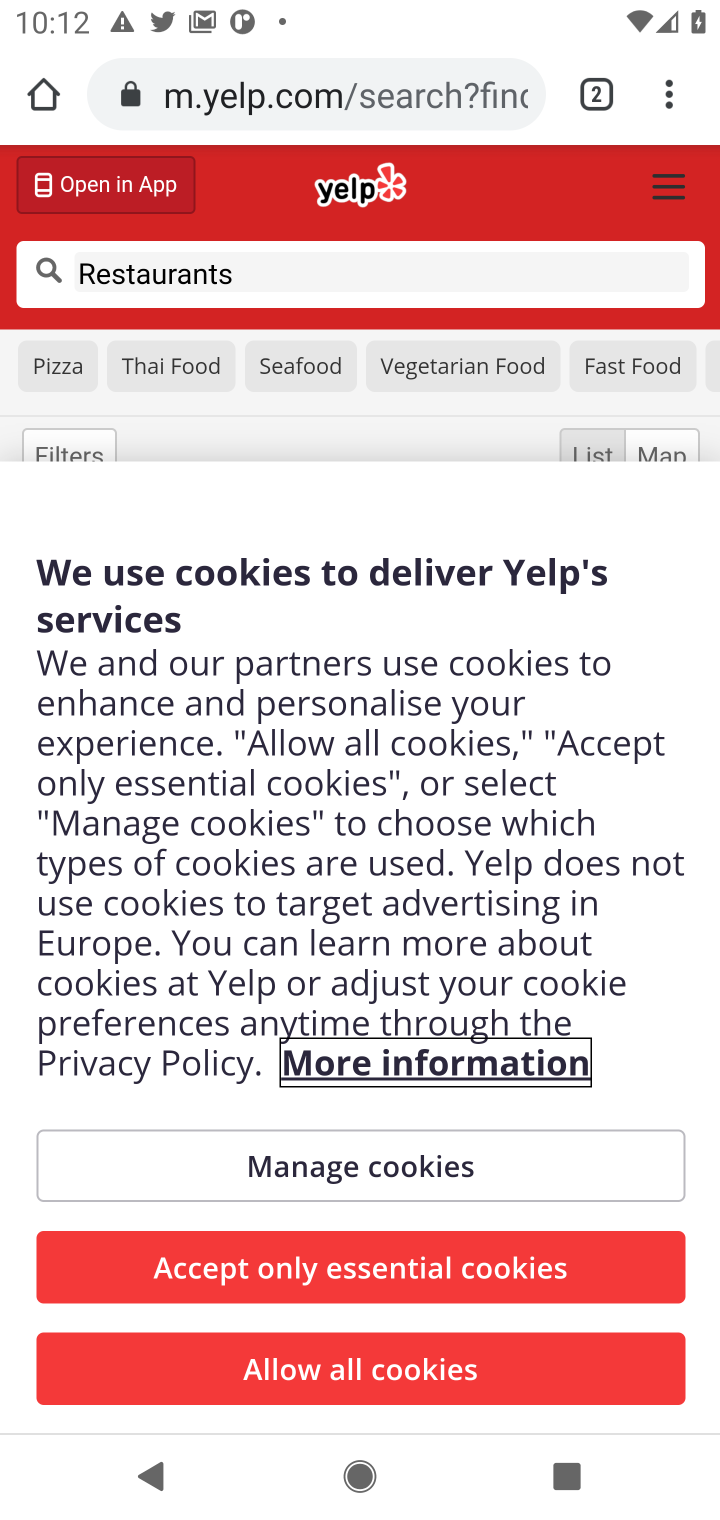
Step 31: task complete